Your task to perform on an android device: Look up the best rated coffee table on Ikea Image 0: 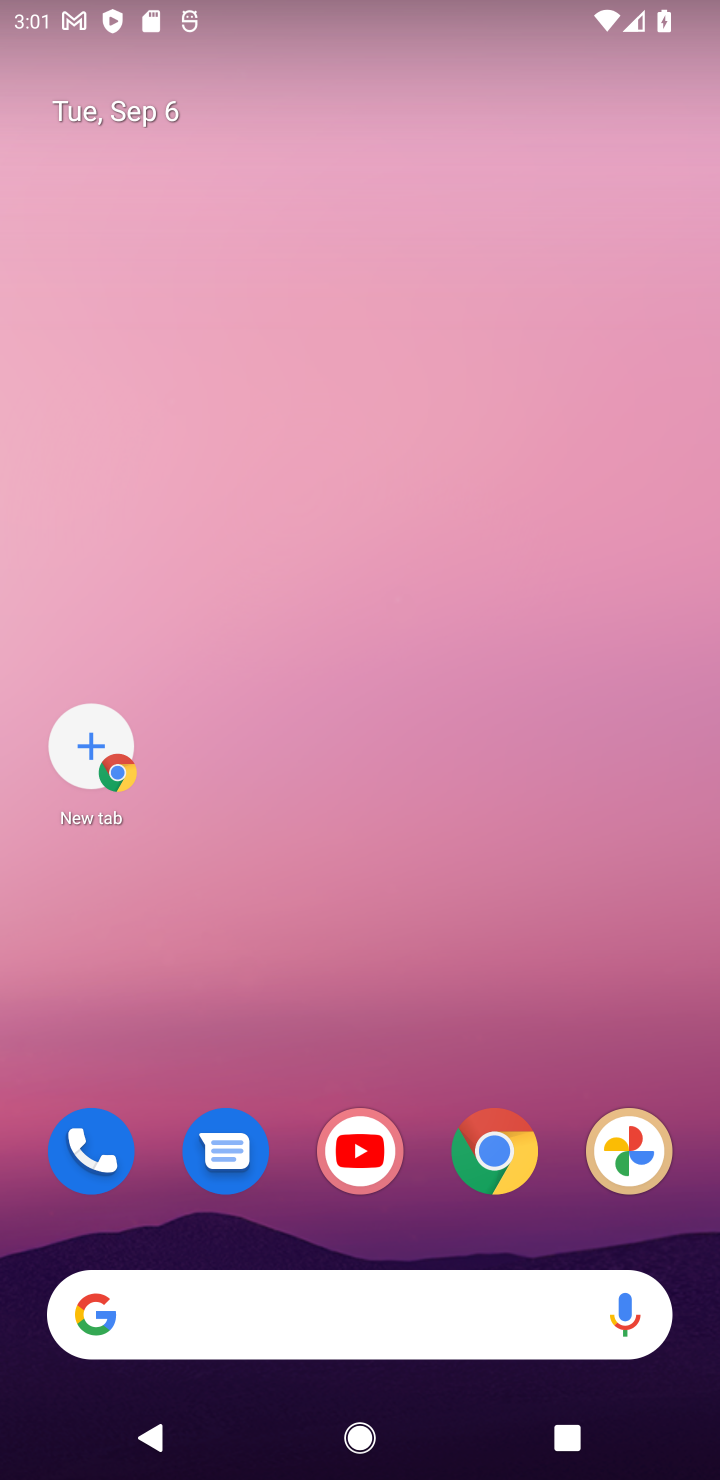
Step 0: click (501, 1157)
Your task to perform on an android device: Look up the best rated coffee table on Ikea Image 1: 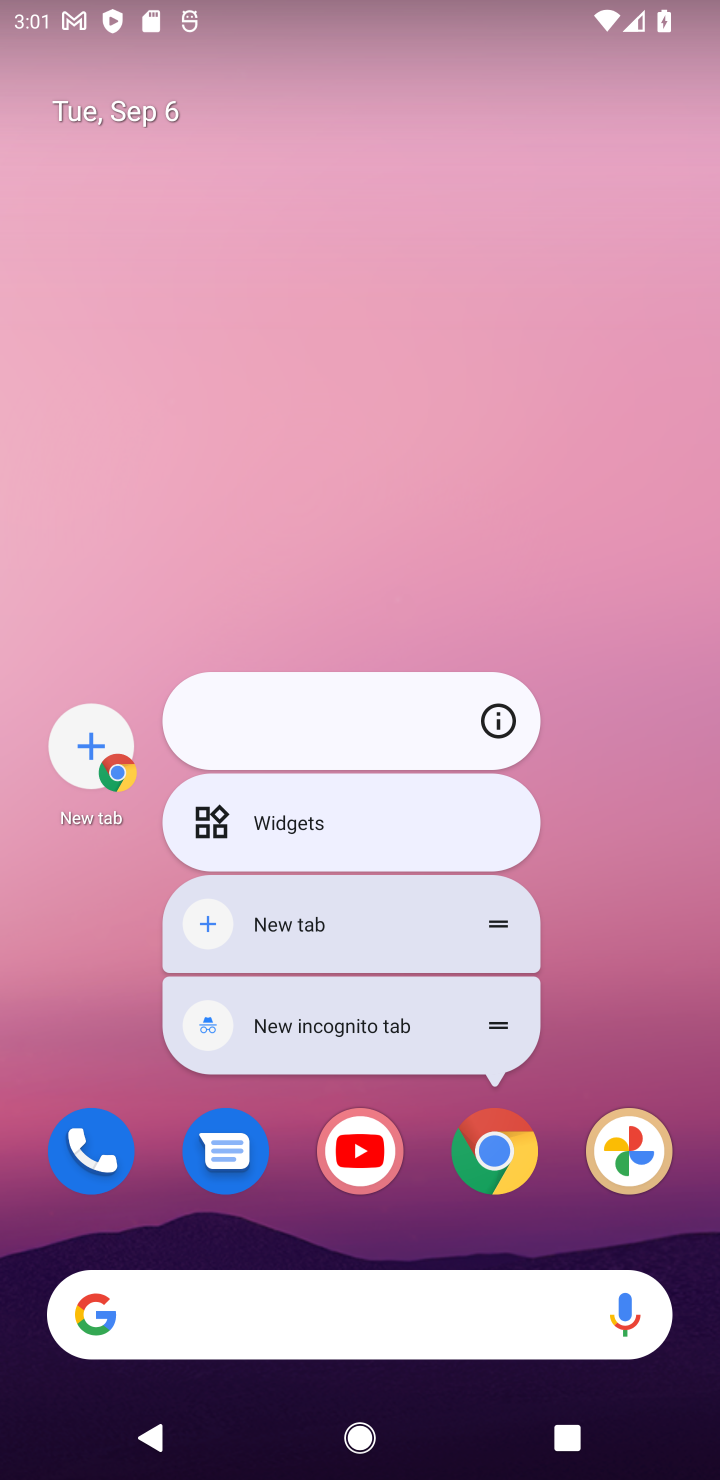
Step 1: click (520, 1152)
Your task to perform on an android device: Look up the best rated coffee table on Ikea Image 2: 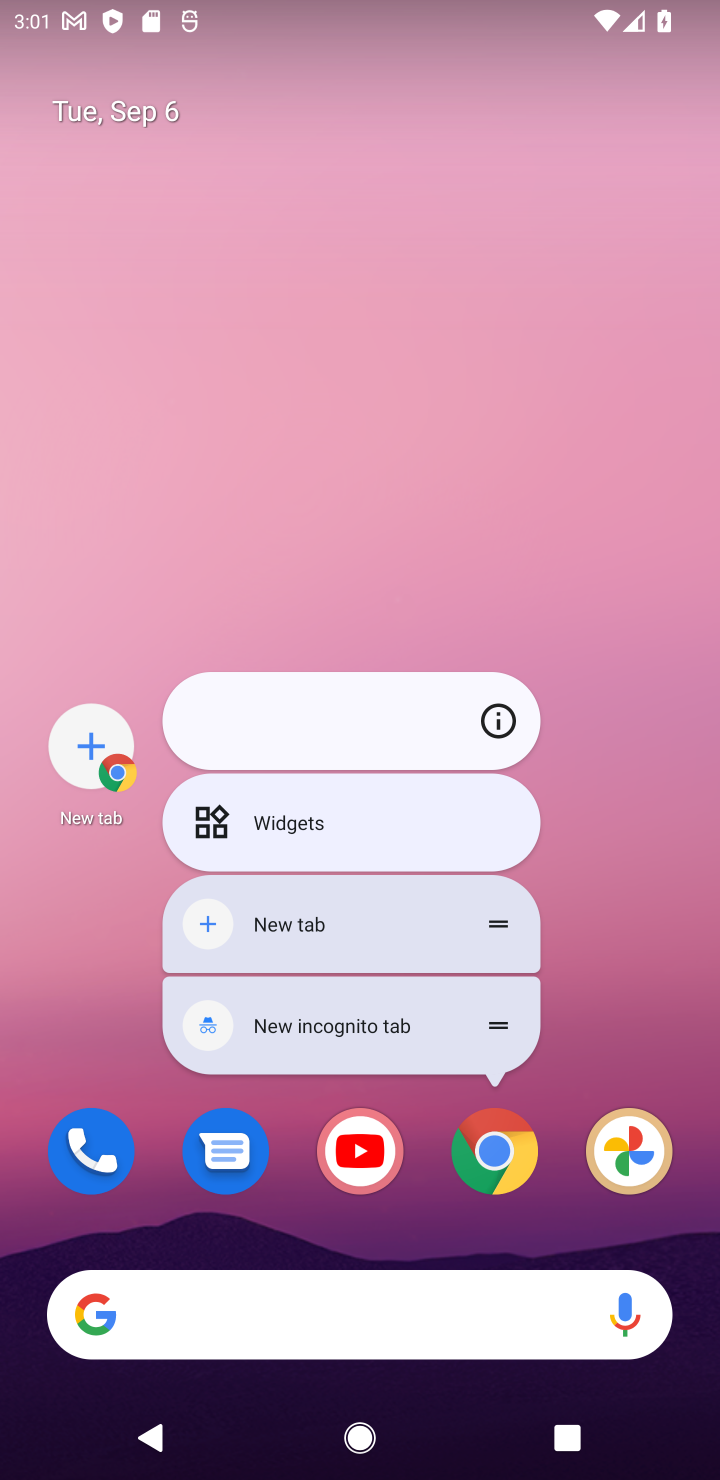
Step 2: click (515, 1161)
Your task to perform on an android device: Look up the best rated coffee table on Ikea Image 3: 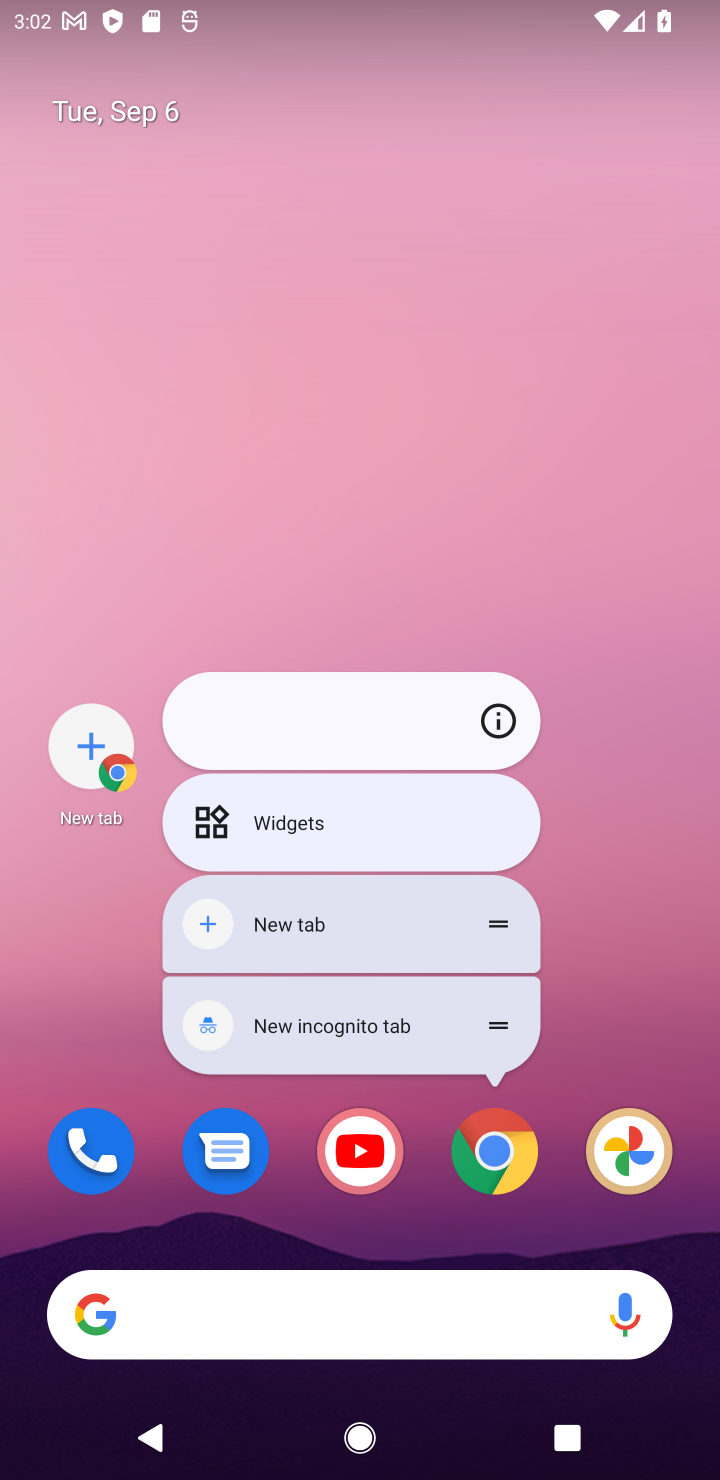
Step 3: click (481, 1159)
Your task to perform on an android device: Look up the best rated coffee table on Ikea Image 4: 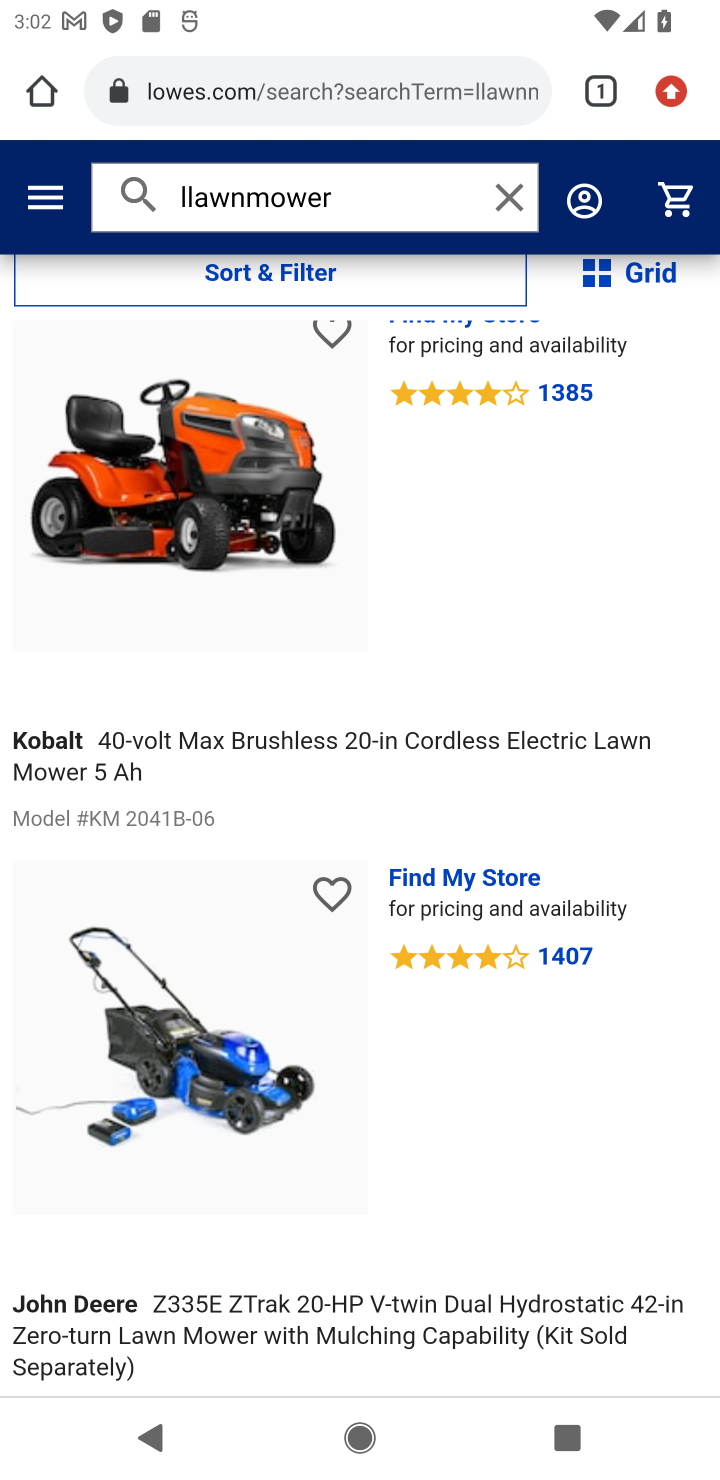
Step 4: click (510, 98)
Your task to perform on an android device: Look up the best rated coffee table on Ikea Image 5: 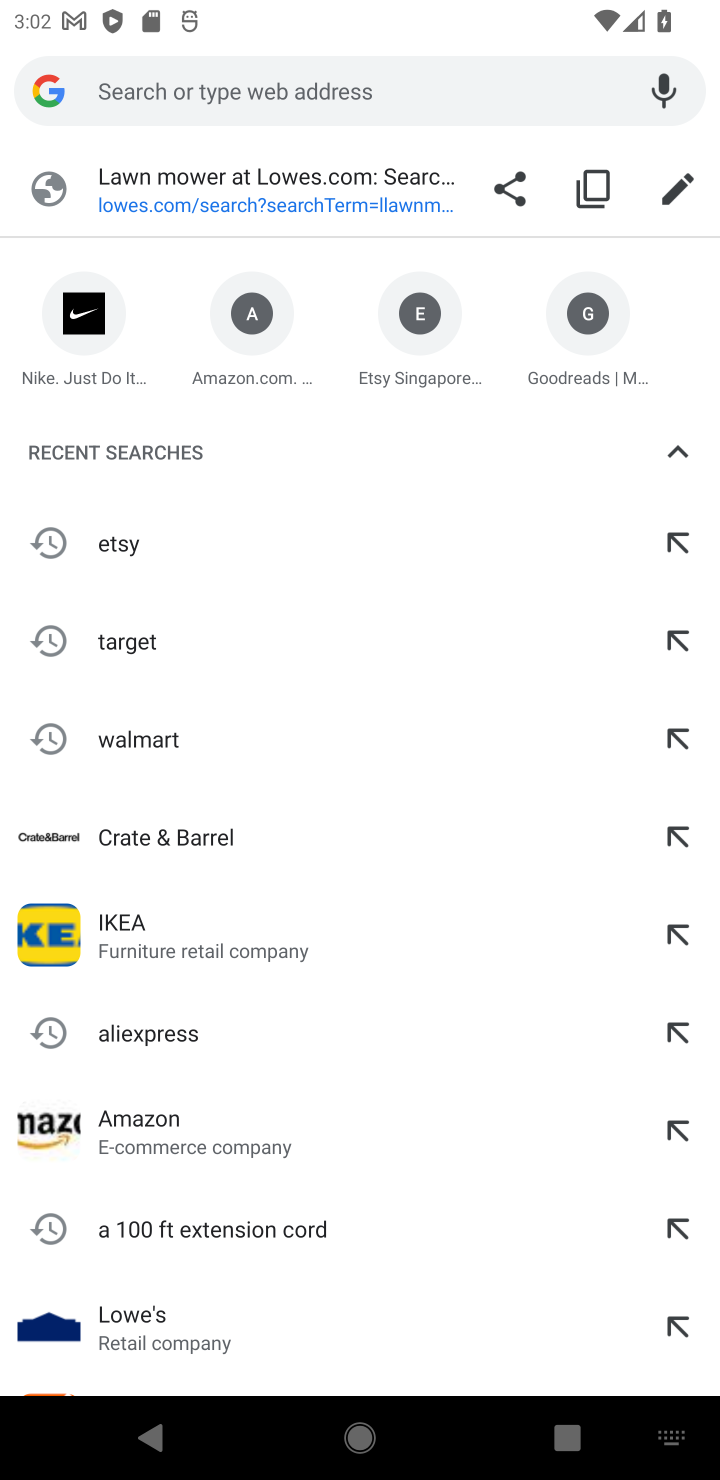
Step 5: click (94, 921)
Your task to perform on an android device: Look up the best rated coffee table on Ikea Image 6: 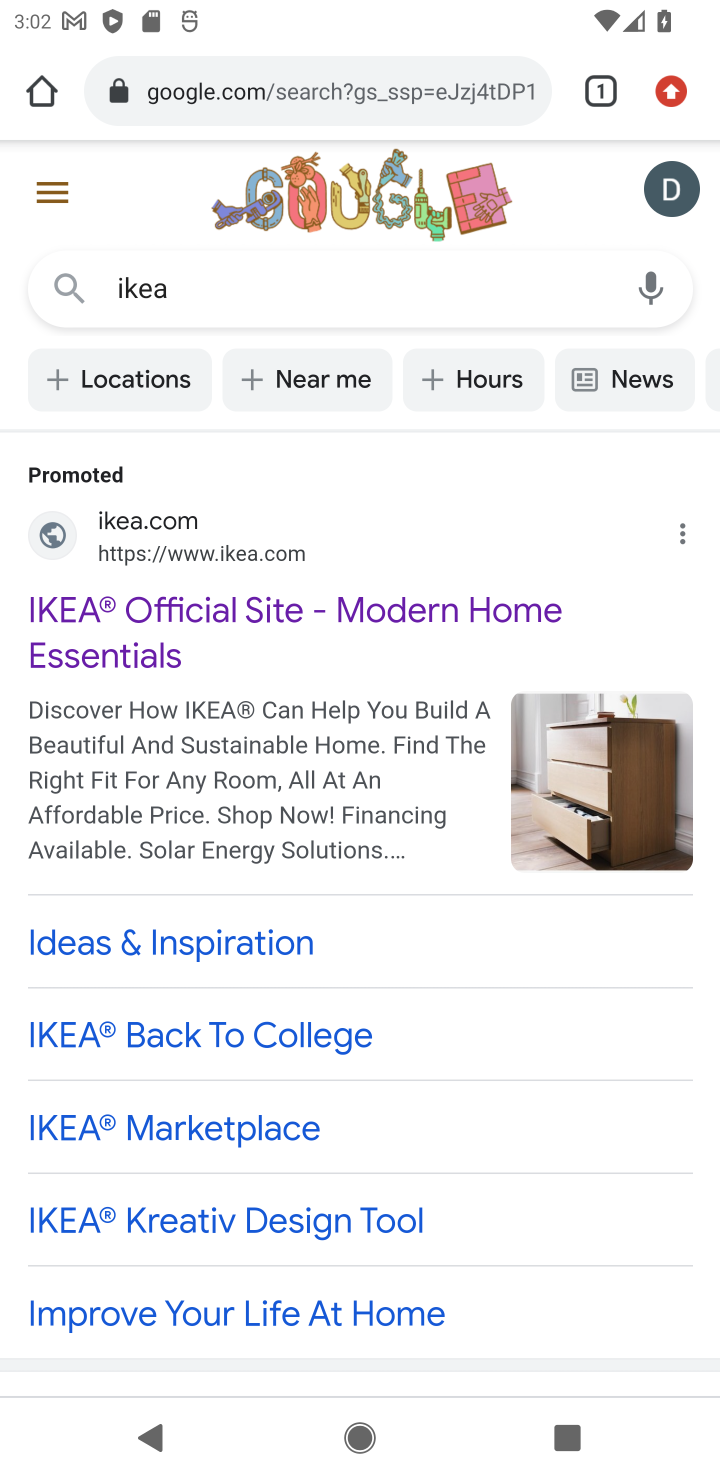
Step 6: drag from (528, 509) to (539, 312)
Your task to perform on an android device: Look up the best rated coffee table on Ikea Image 7: 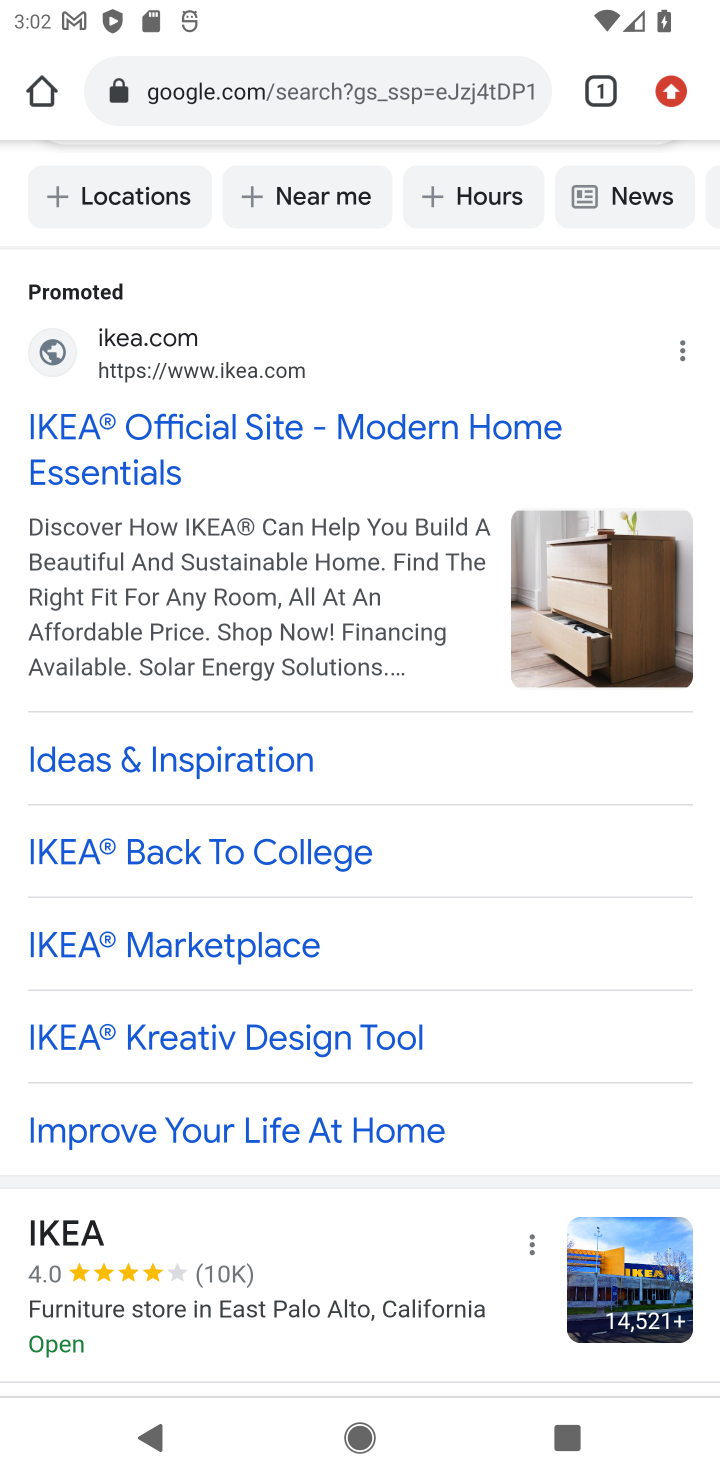
Step 7: drag from (411, 1350) to (501, 350)
Your task to perform on an android device: Look up the best rated coffee table on Ikea Image 8: 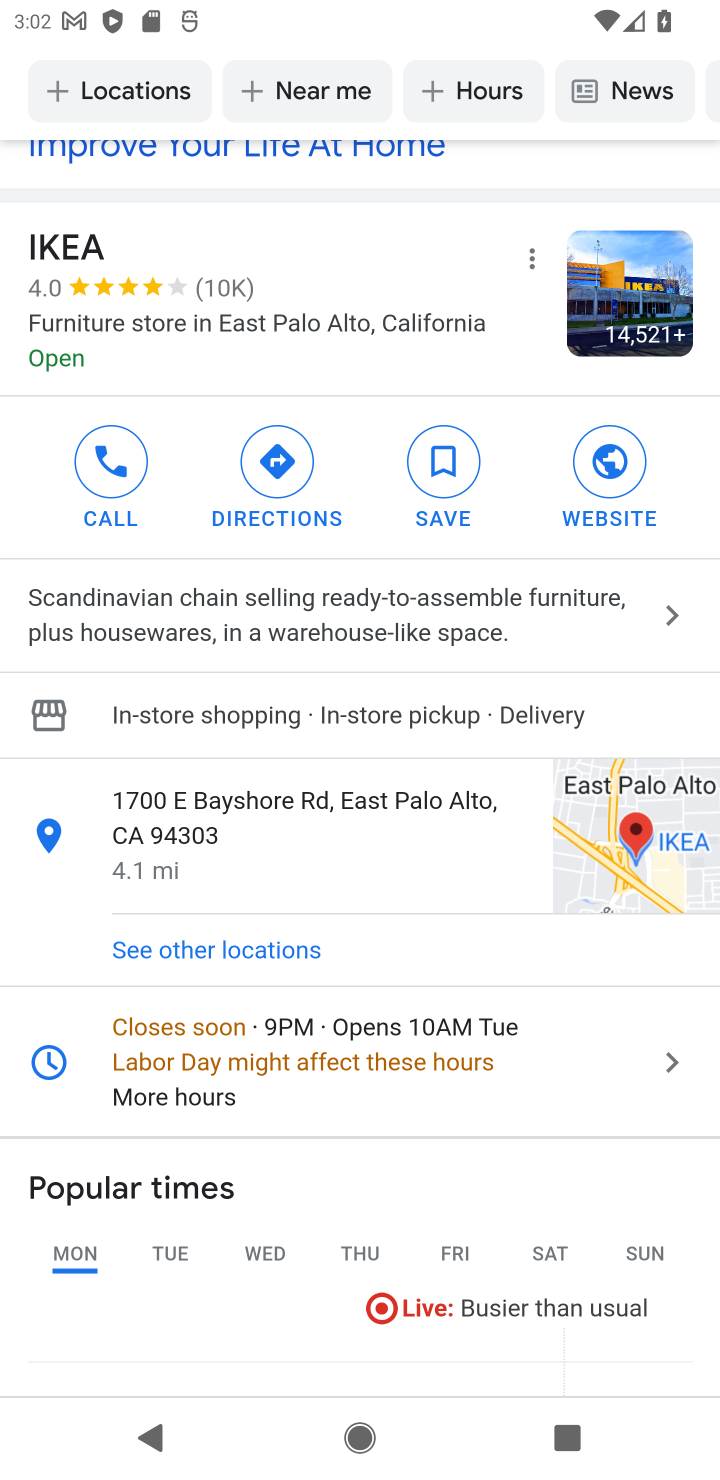
Step 8: drag from (599, 970) to (603, 430)
Your task to perform on an android device: Look up the best rated coffee table on Ikea Image 9: 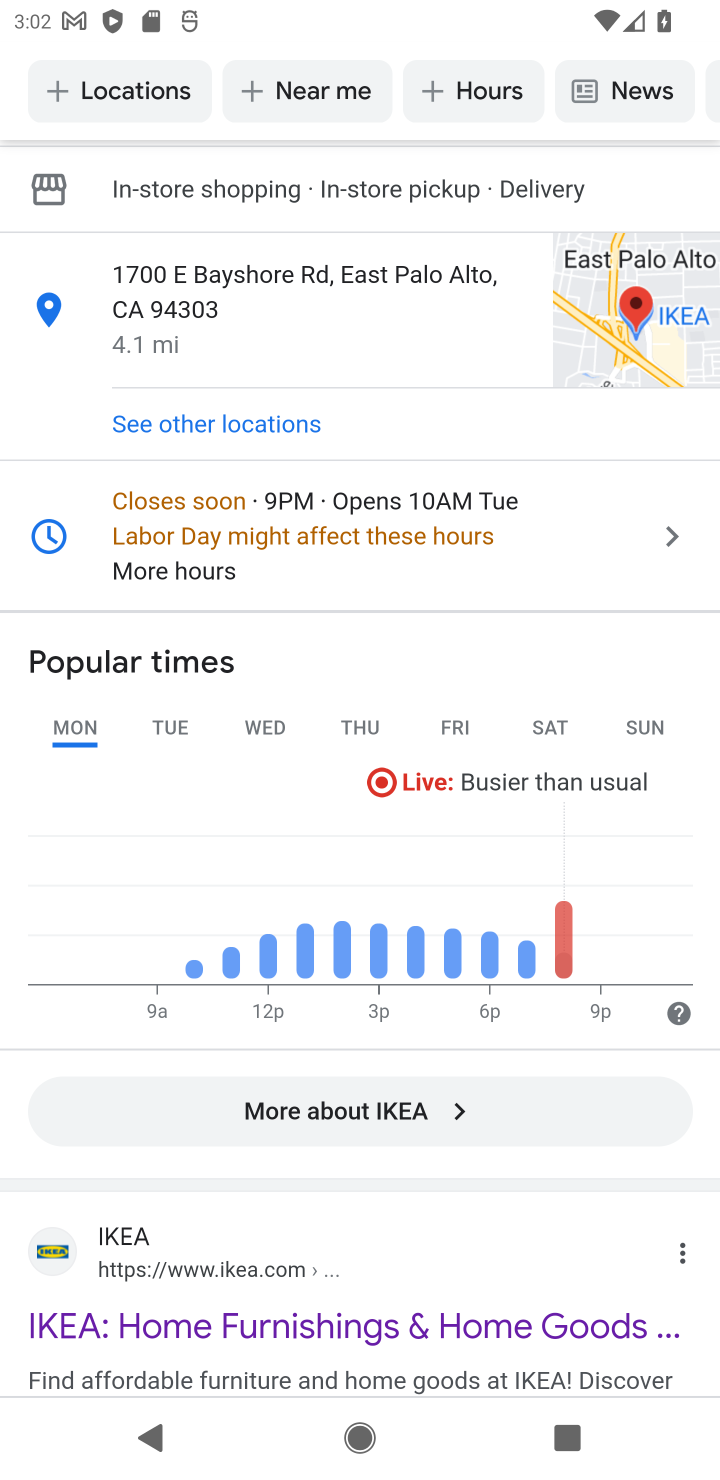
Step 9: click (149, 1329)
Your task to perform on an android device: Look up the best rated coffee table on Ikea Image 10: 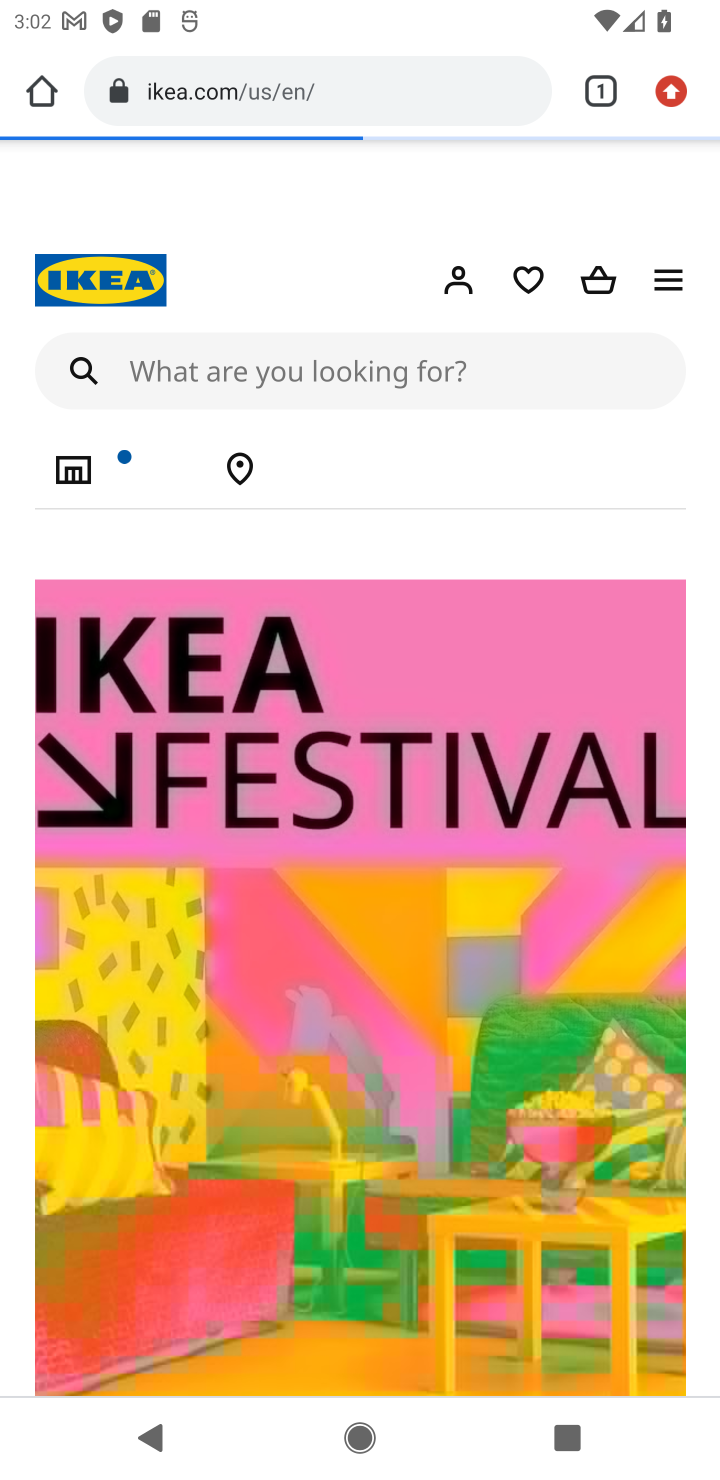
Step 10: click (502, 379)
Your task to perform on an android device: Look up the best rated coffee table on Ikea Image 11: 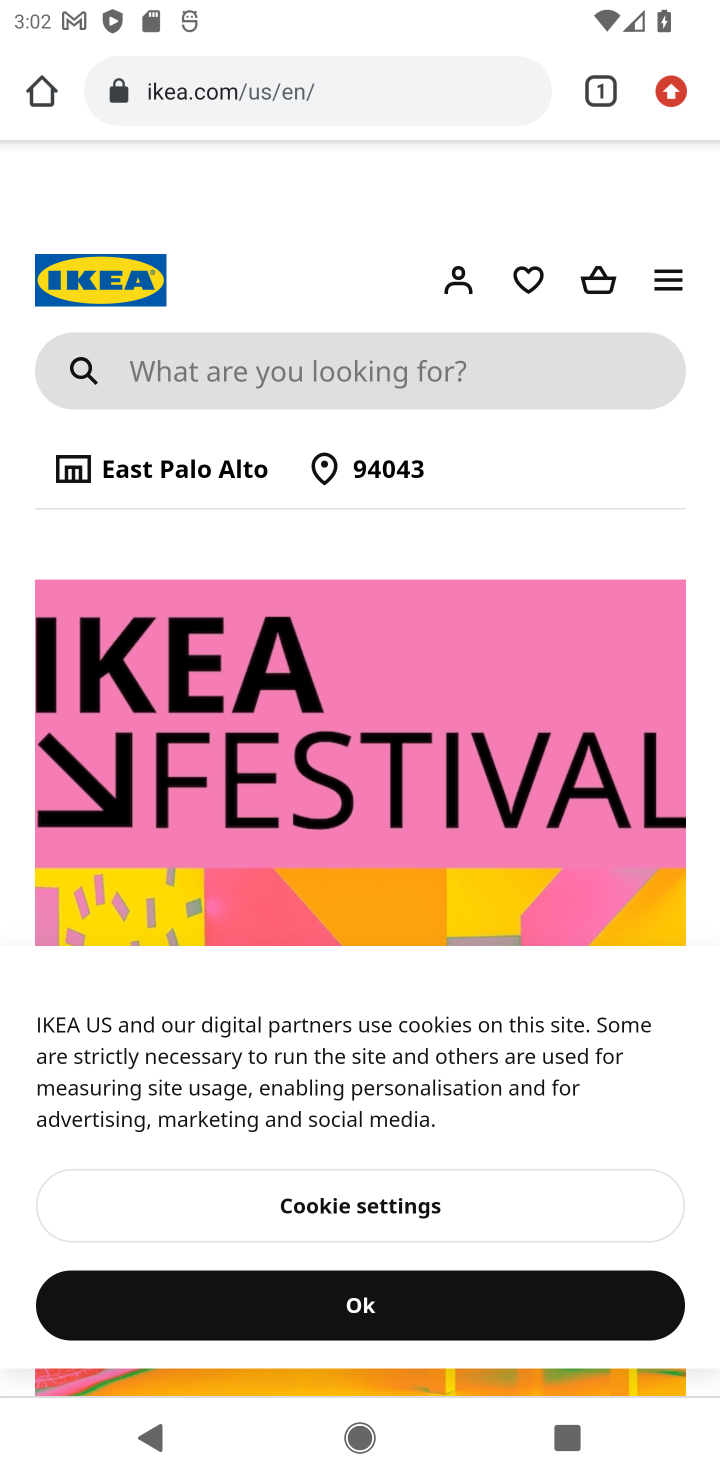
Step 11: type "coffee table"
Your task to perform on an android device: Look up the best rated coffee table on Ikea Image 12: 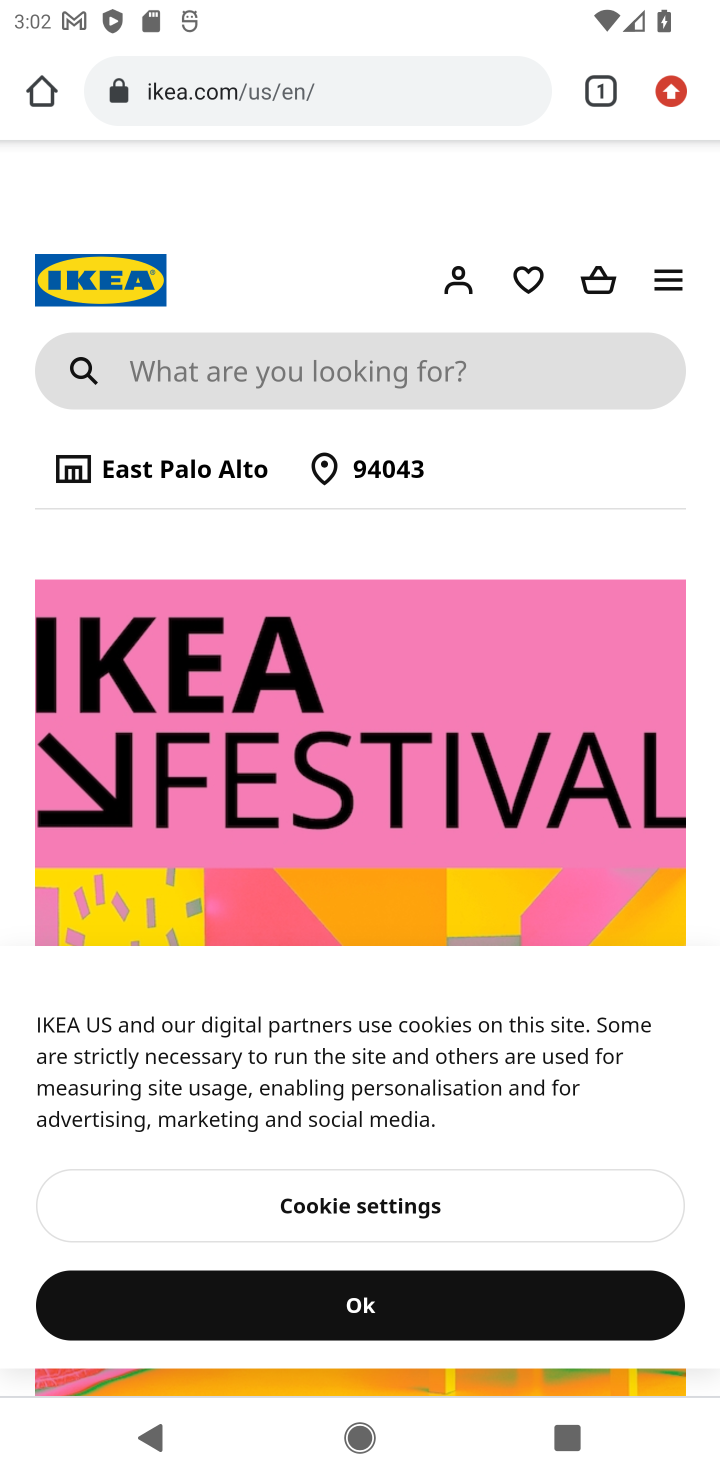
Step 12: type ""
Your task to perform on an android device: Look up the best rated coffee table on Ikea Image 13: 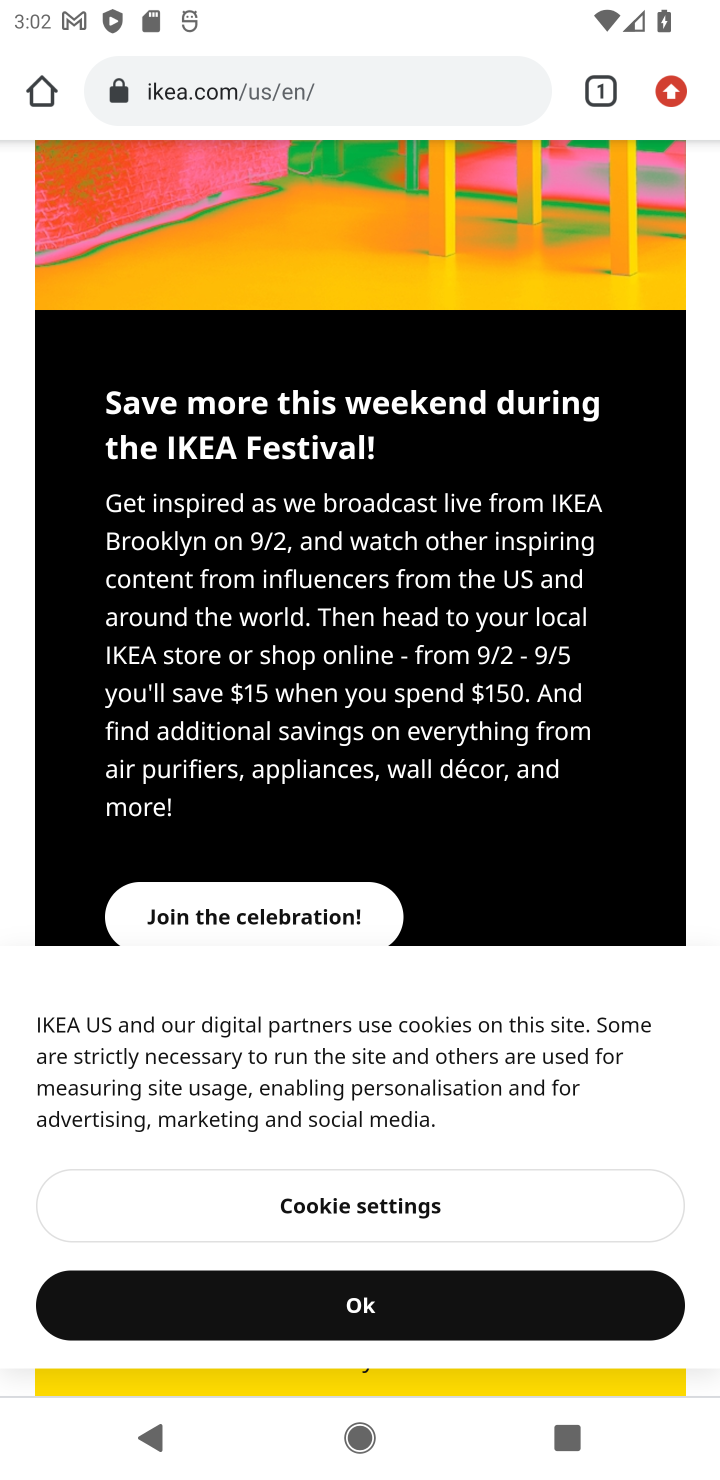
Step 13: drag from (411, 874) to (433, 427)
Your task to perform on an android device: Look up the best rated coffee table on Ikea Image 14: 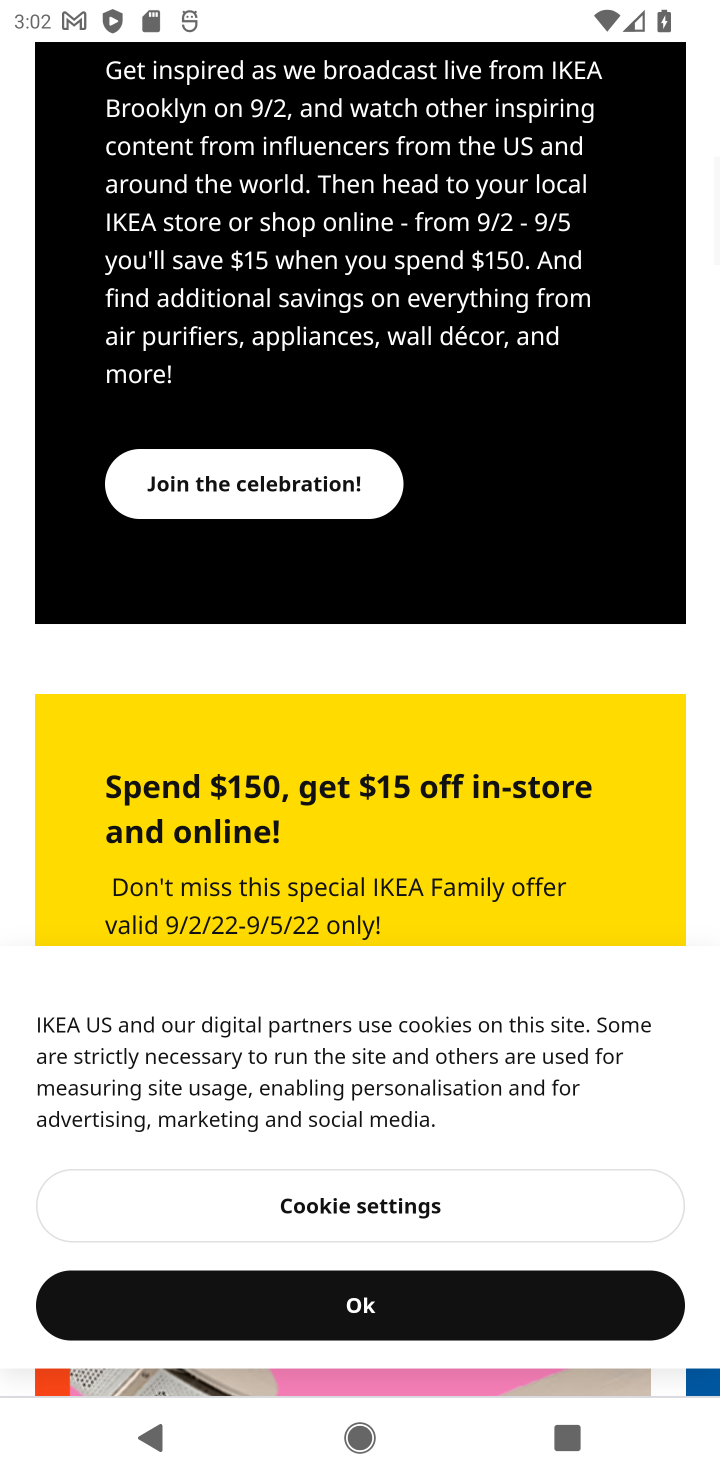
Step 14: drag from (580, 1121) to (588, 475)
Your task to perform on an android device: Look up the best rated coffee table on Ikea Image 15: 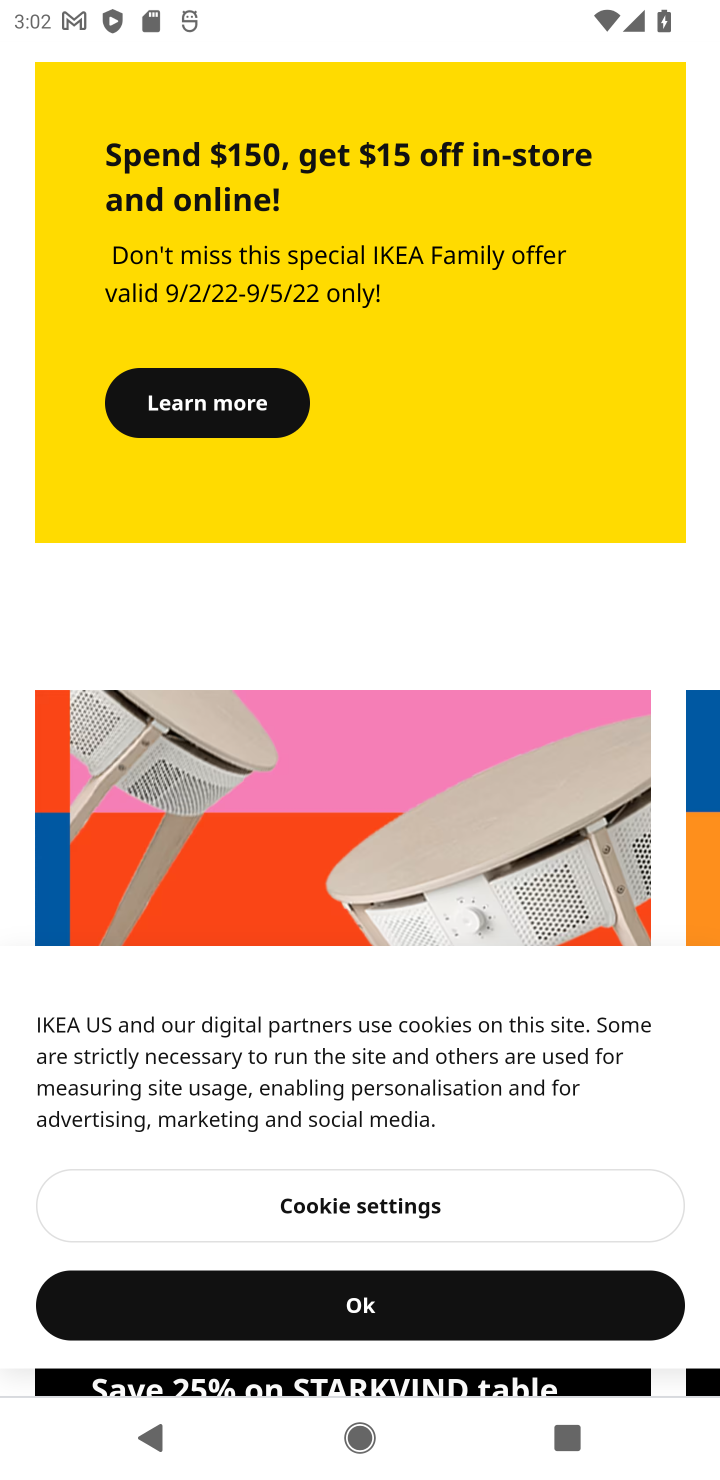
Step 15: drag from (455, 1042) to (488, 551)
Your task to perform on an android device: Look up the best rated coffee table on Ikea Image 16: 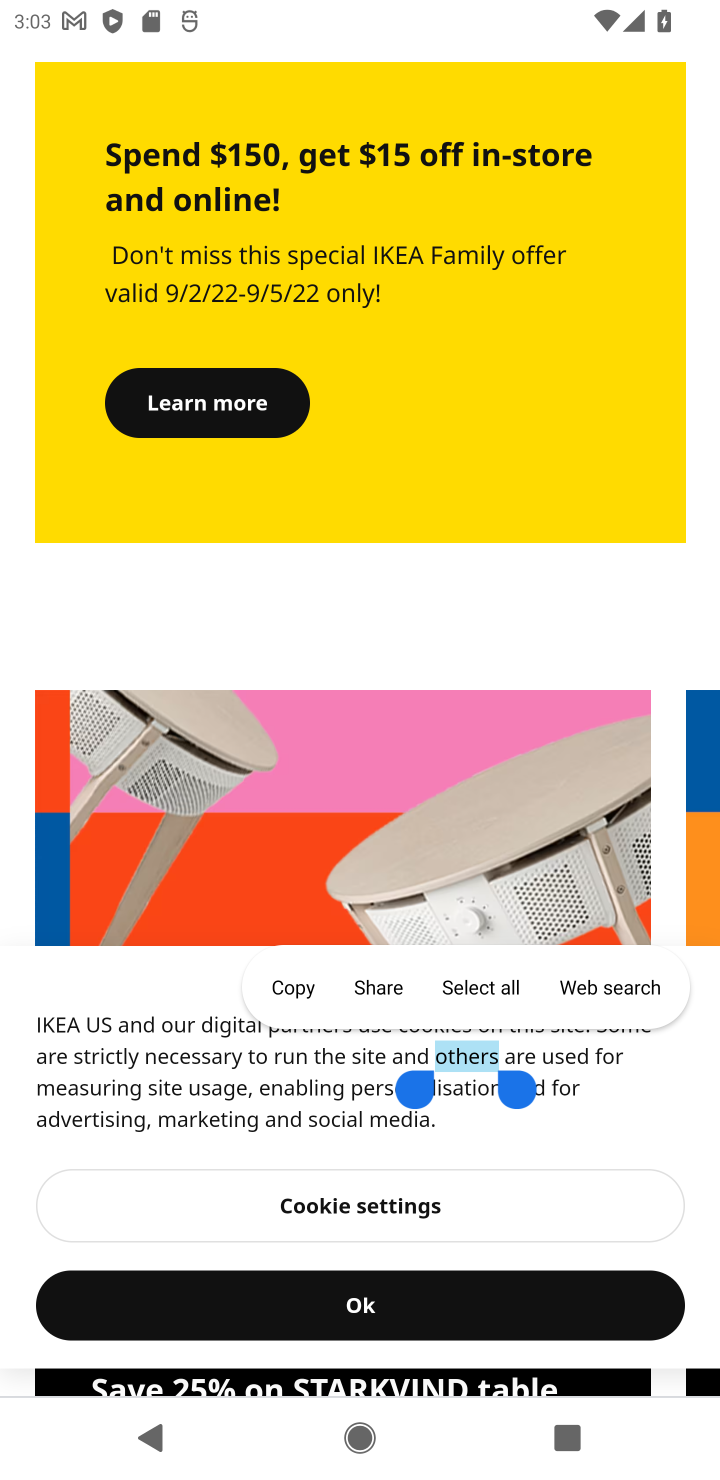
Step 16: drag from (607, 710) to (587, 409)
Your task to perform on an android device: Look up the best rated coffee table on Ikea Image 17: 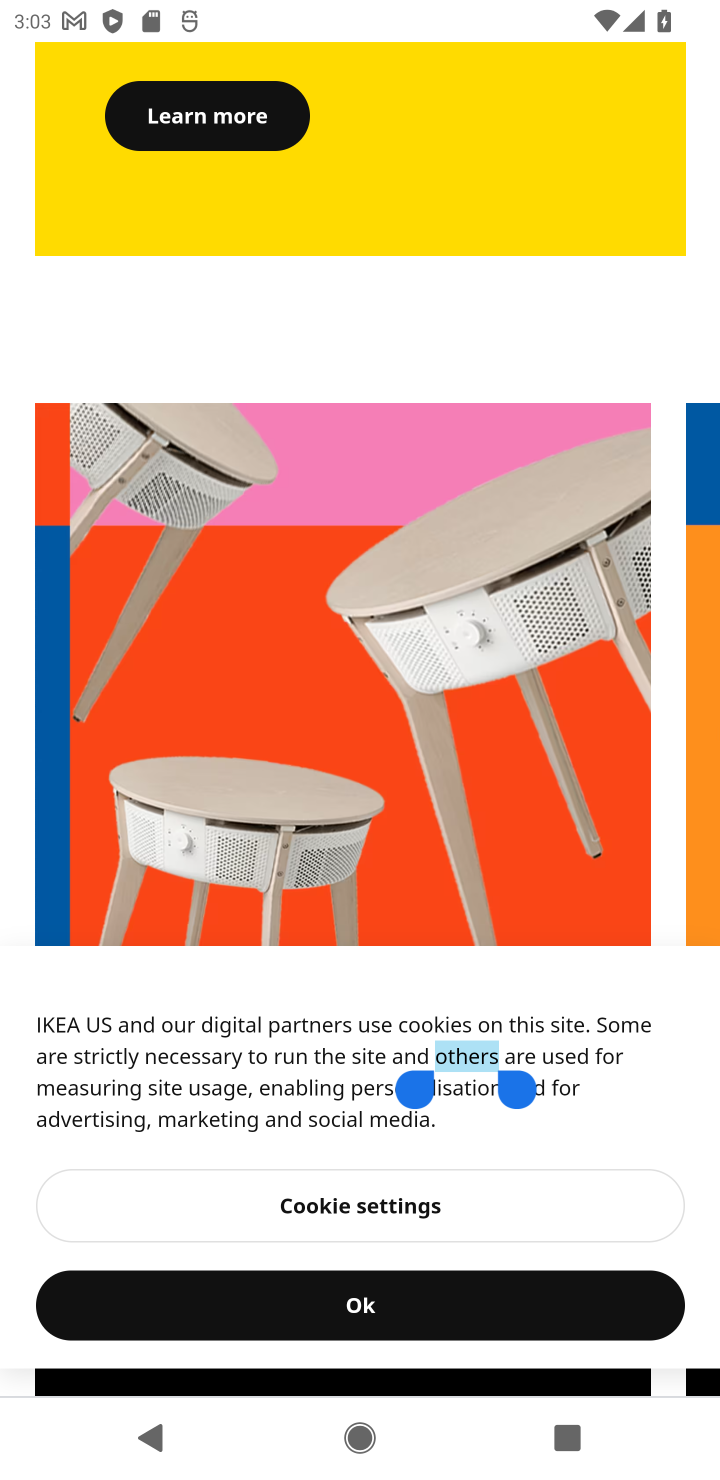
Step 17: drag from (597, 739) to (565, 350)
Your task to perform on an android device: Look up the best rated coffee table on Ikea Image 18: 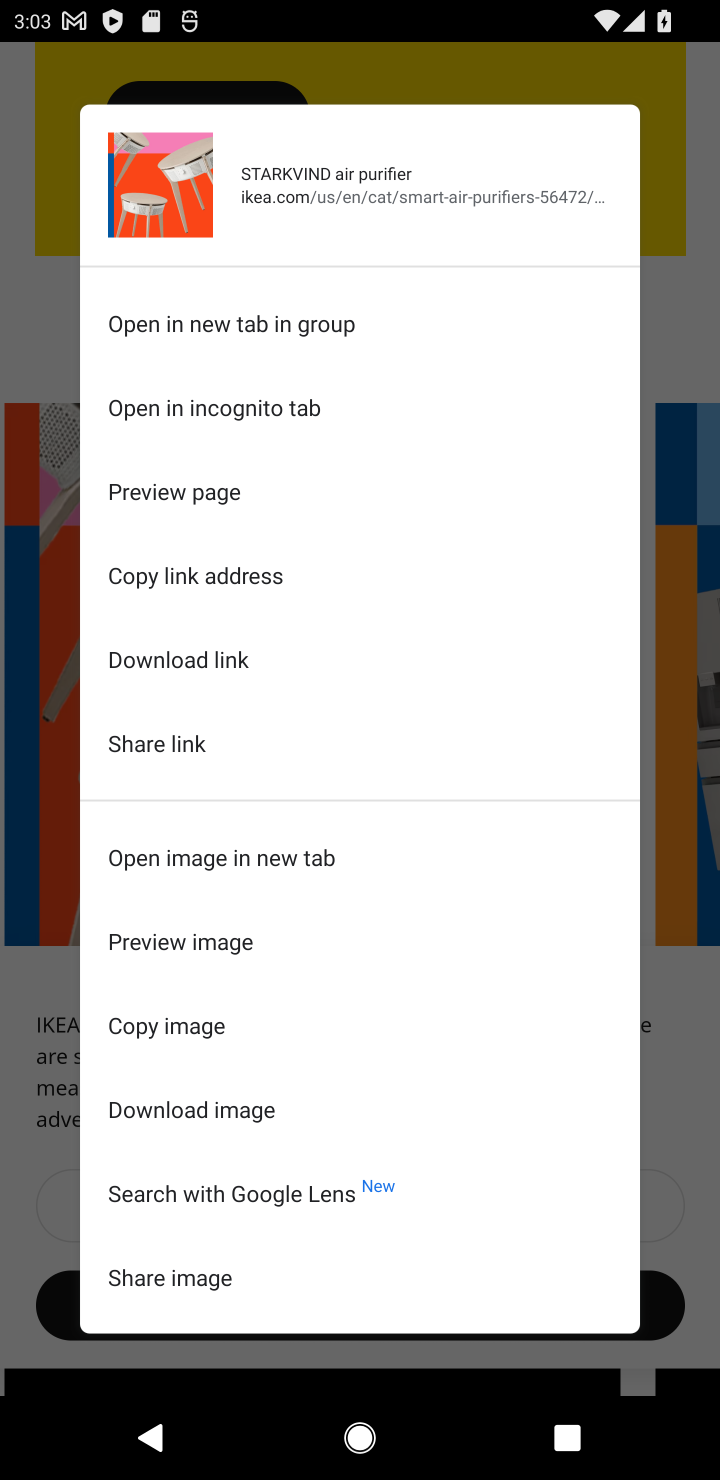
Step 18: click (682, 730)
Your task to perform on an android device: Look up the best rated coffee table on Ikea Image 19: 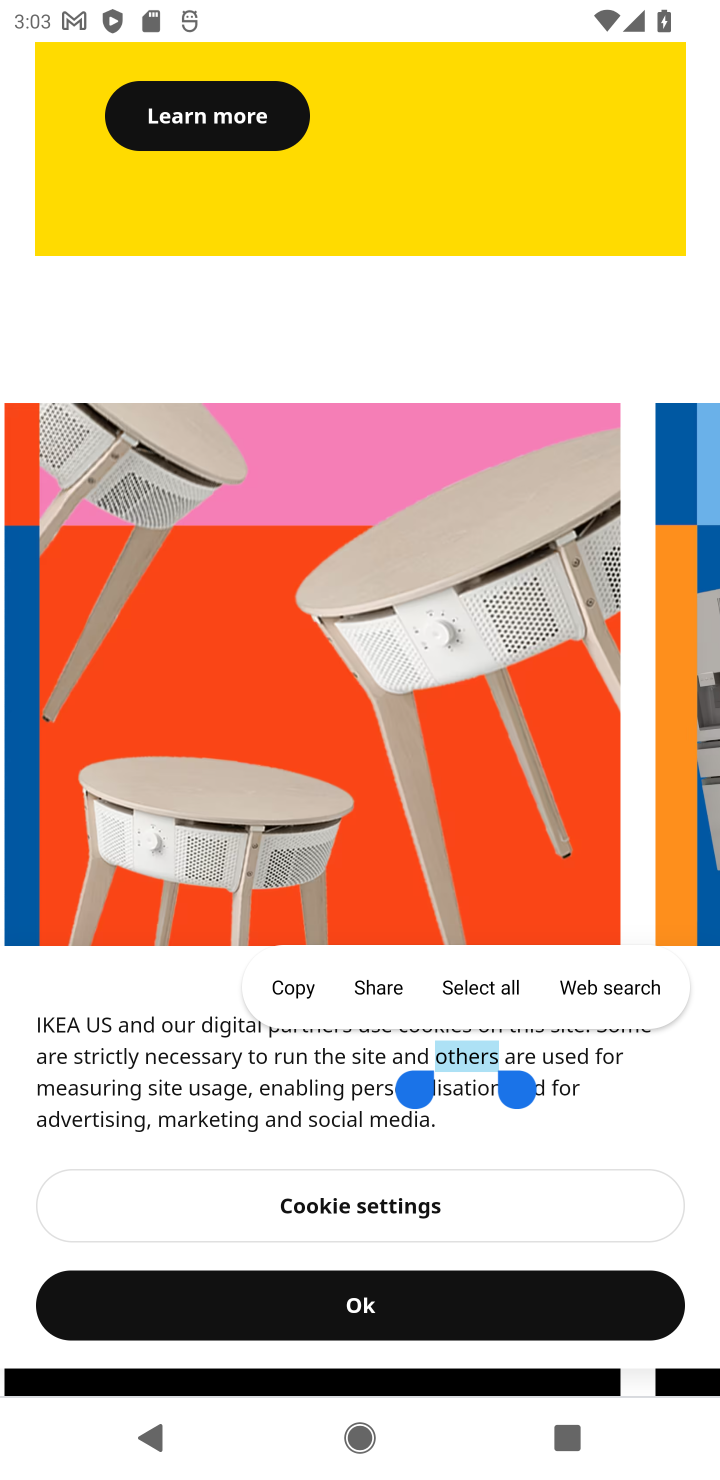
Step 19: drag from (250, 547) to (246, 480)
Your task to perform on an android device: Look up the best rated coffee table on Ikea Image 20: 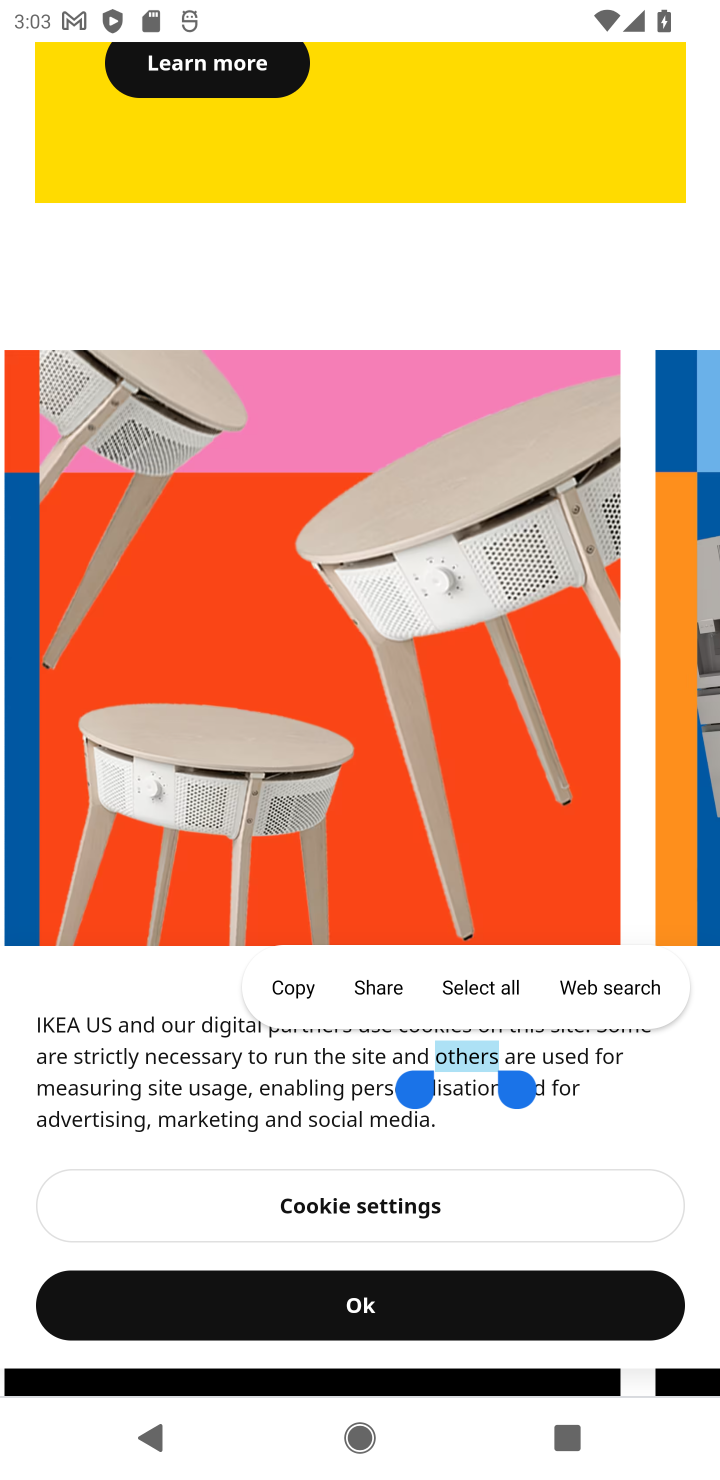
Step 20: drag from (204, 1008) to (172, 574)
Your task to perform on an android device: Look up the best rated coffee table on Ikea Image 21: 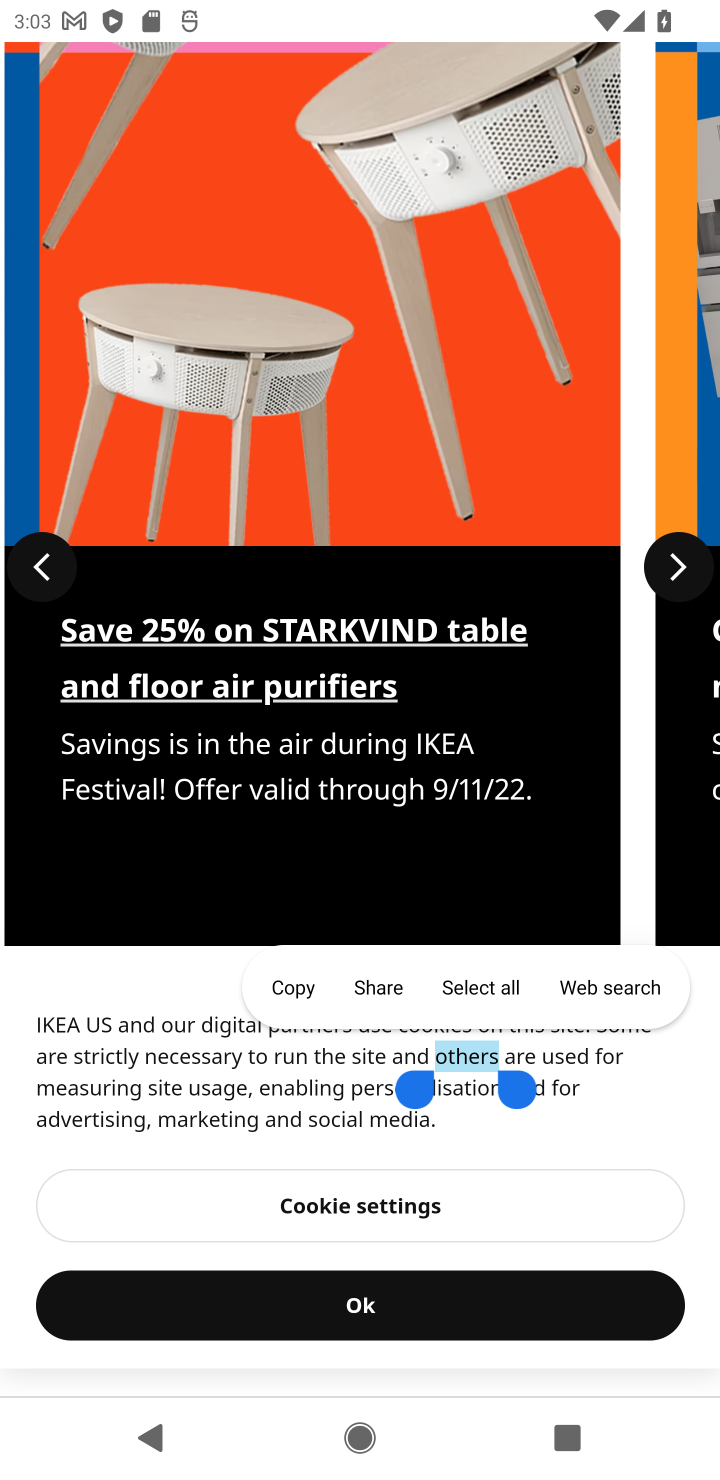
Step 21: drag from (337, 1063) to (410, 326)
Your task to perform on an android device: Look up the best rated coffee table on Ikea Image 22: 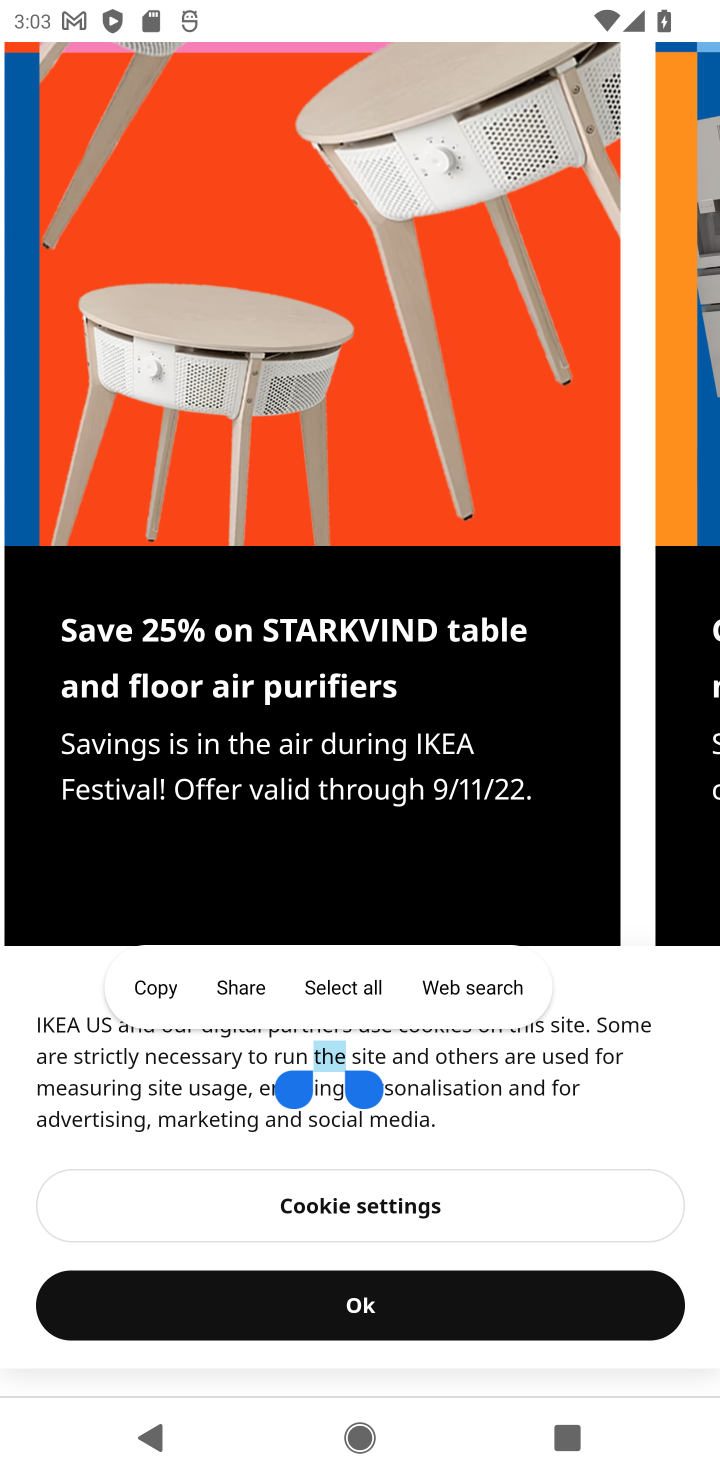
Step 22: drag from (277, 882) to (311, 392)
Your task to perform on an android device: Look up the best rated coffee table on Ikea Image 23: 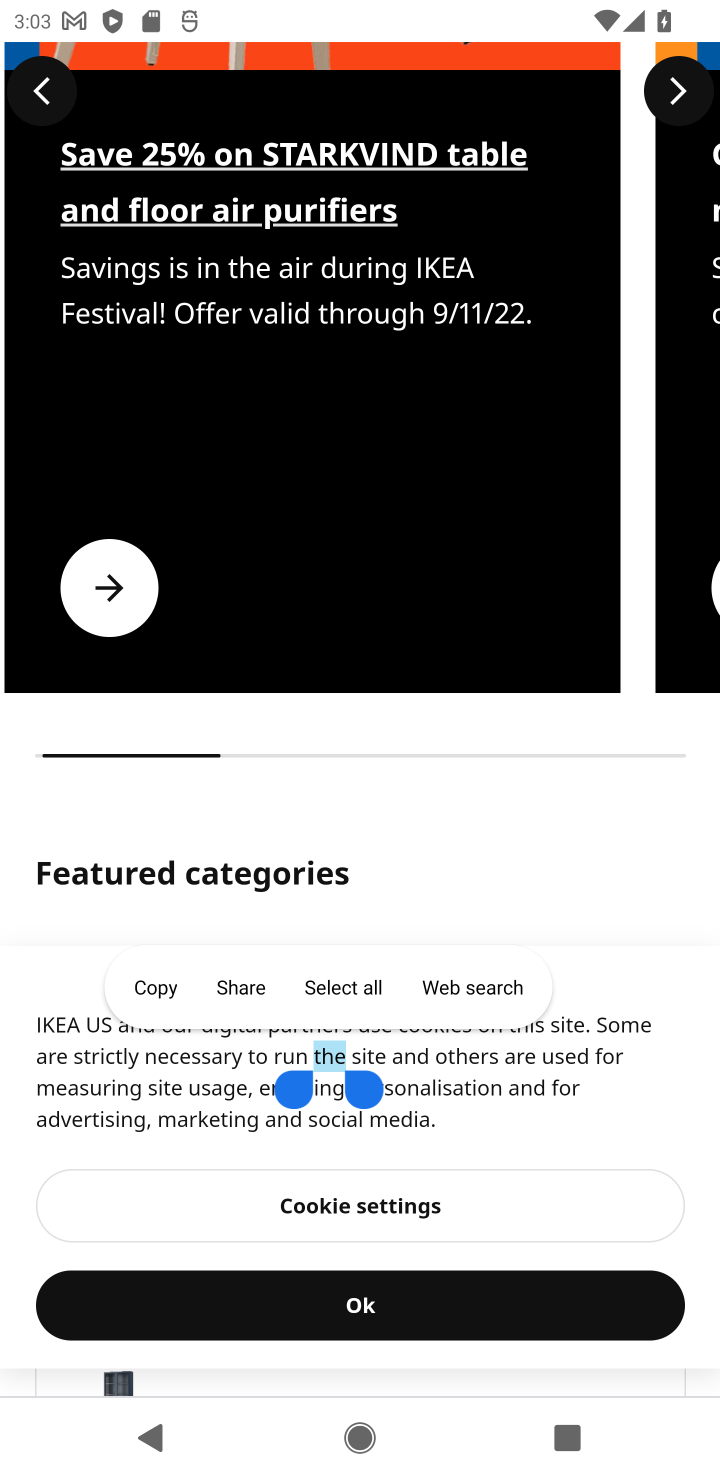
Step 23: drag from (333, 849) to (331, 281)
Your task to perform on an android device: Look up the best rated coffee table on Ikea Image 24: 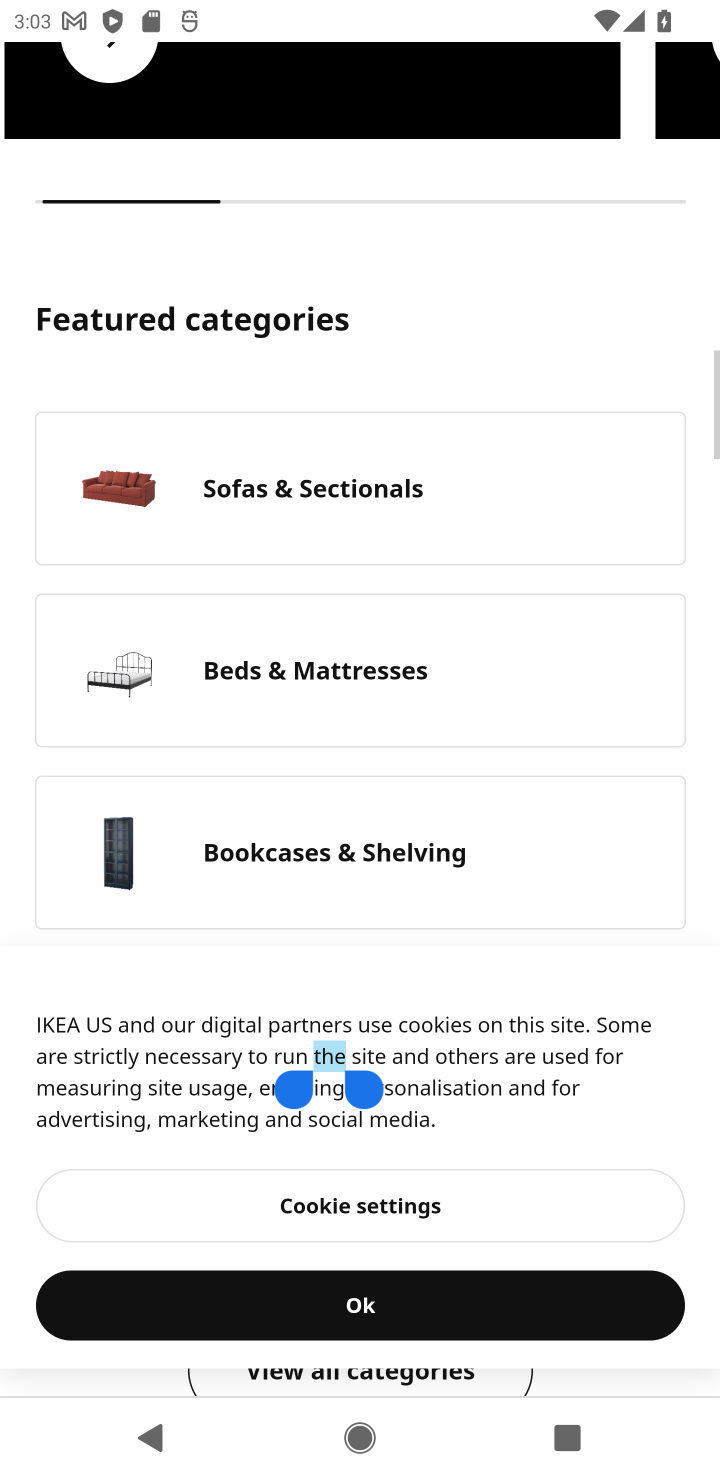
Step 24: drag from (291, 721) to (287, 418)
Your task to perform on an android device: Look up the best rated coffee table on Ikea Image 25: 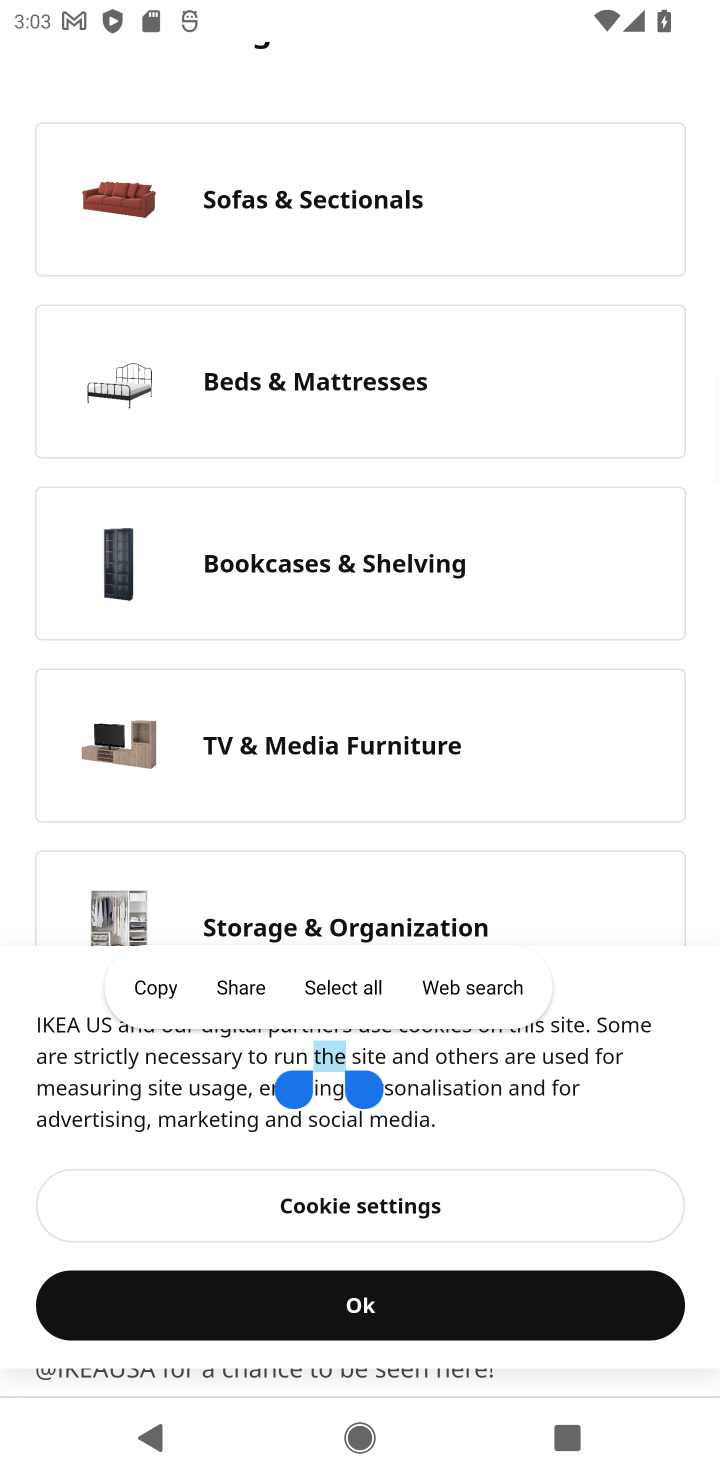
Step 25: drag from (187, 835) to (161, 642)
Your task to perform on an android device: Look up the best rated coffee table on Ikea Image 26: 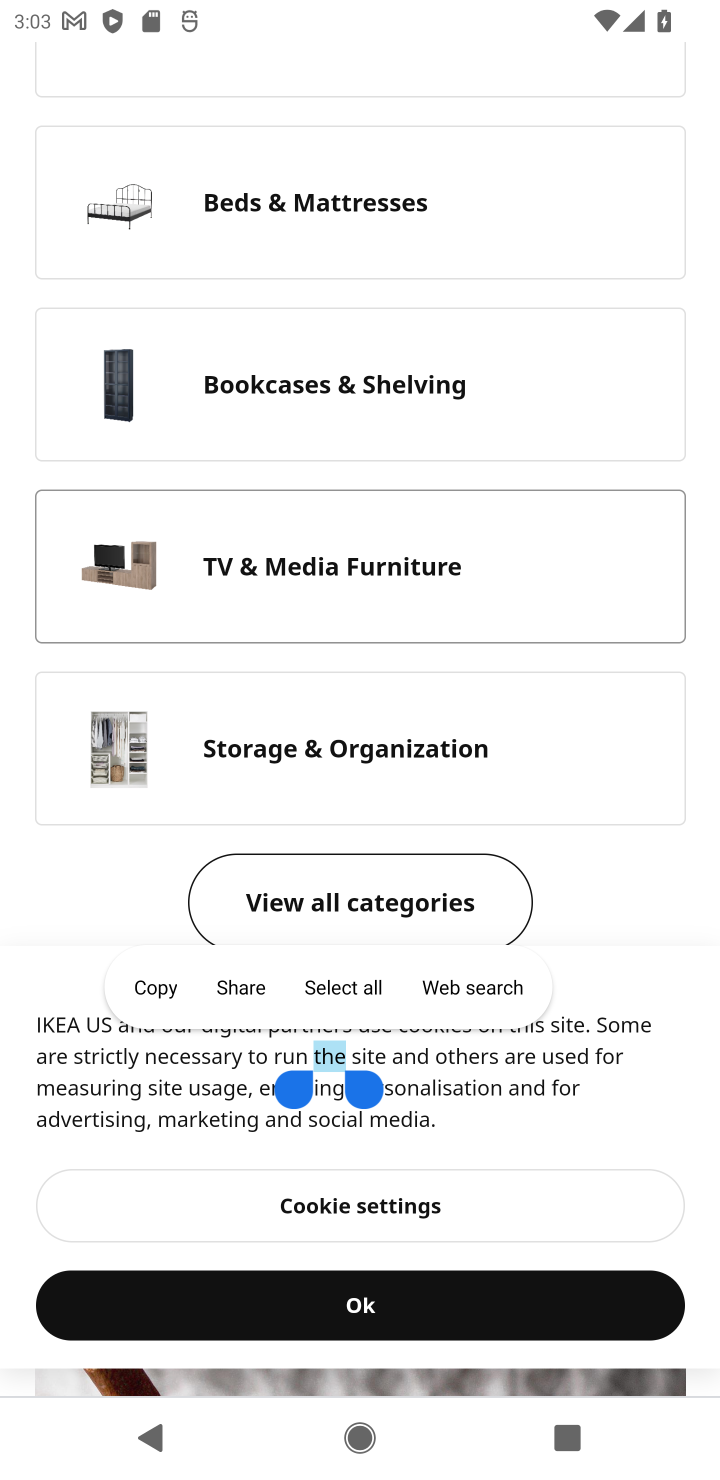
Step 26: drag from (616, 418) to (610, 1028)
Your task to perform on an android device: Look up the best rated coffee table on Ikea Image 27: 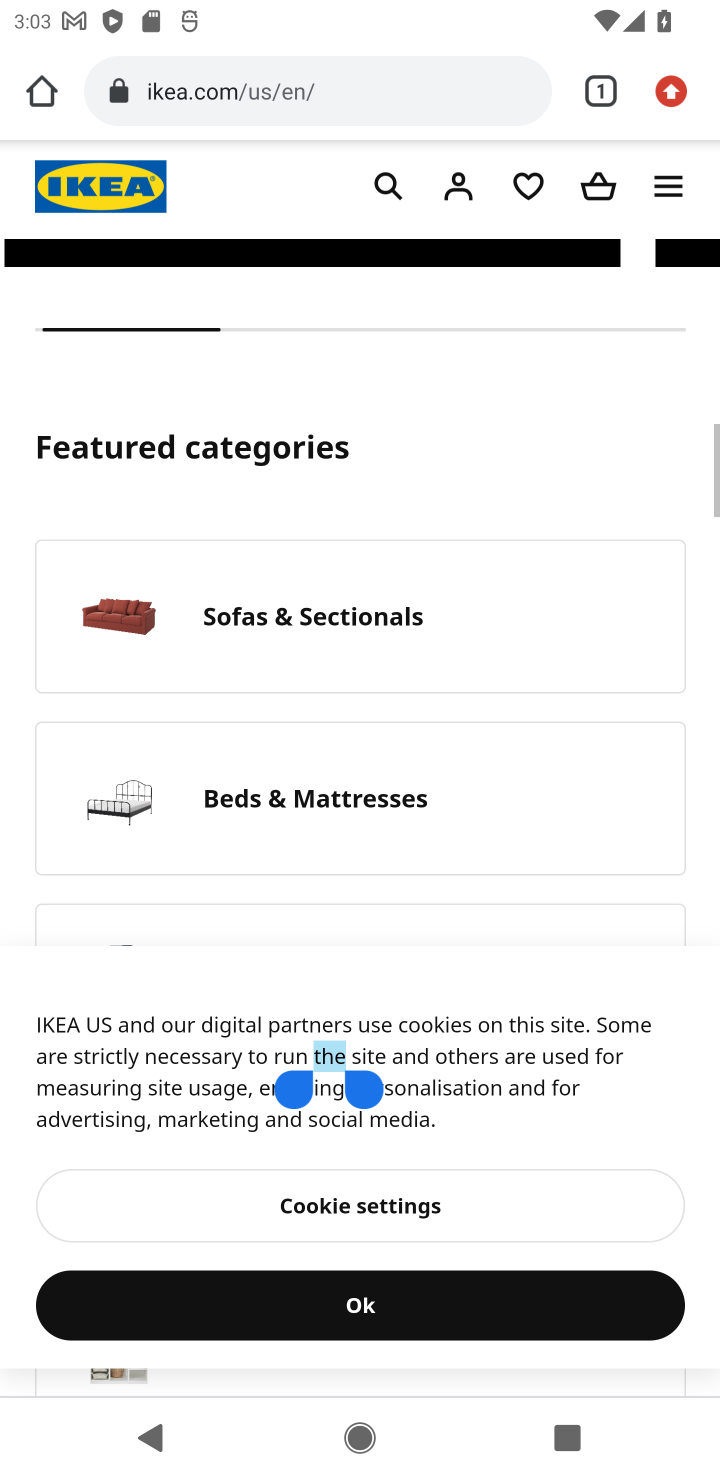
Step 27: drag from (550, 706) to (582, 1127)
Your task to perform on an android device: Look up the best rated coffee table on Ikea Image 28: 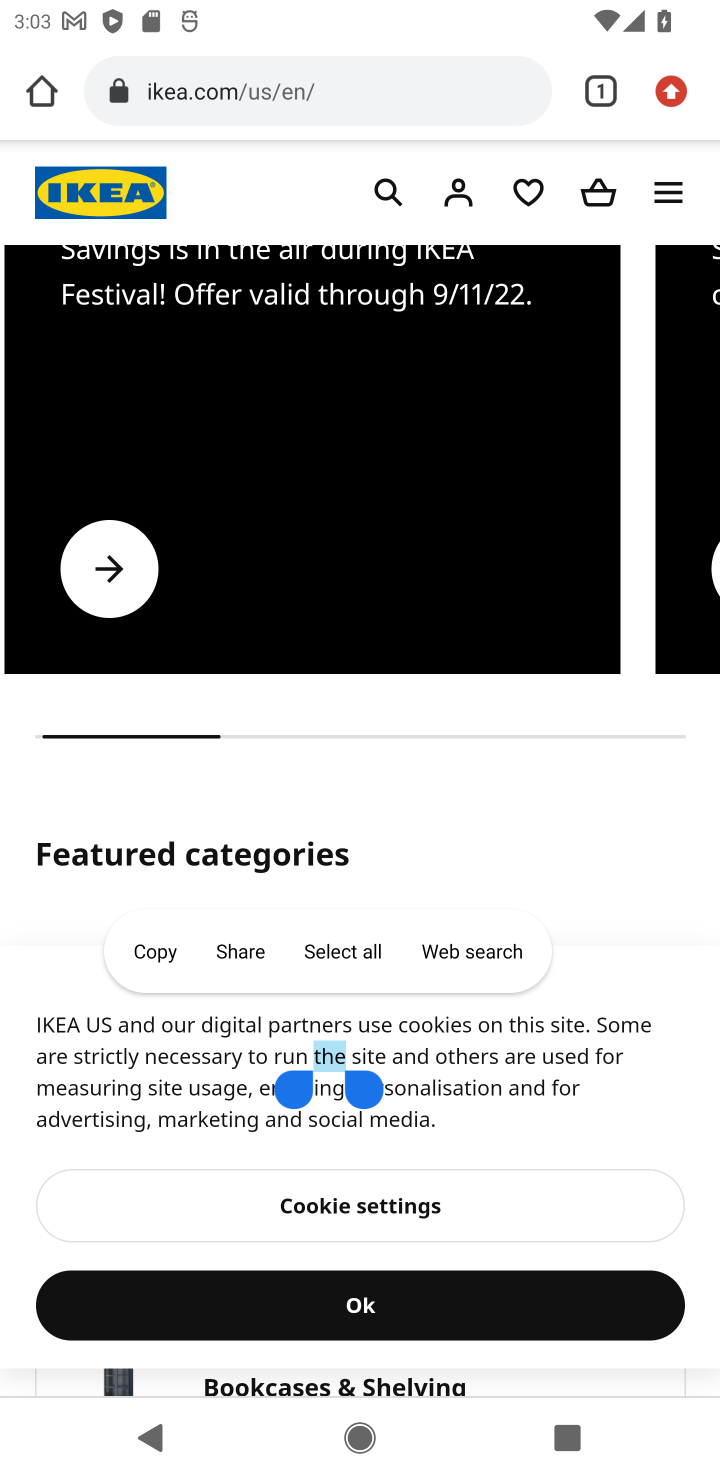
Step 28: click (385, 187)
Your task to perform on an android device: Look up the best rated coffee table on Ikea Image 29: 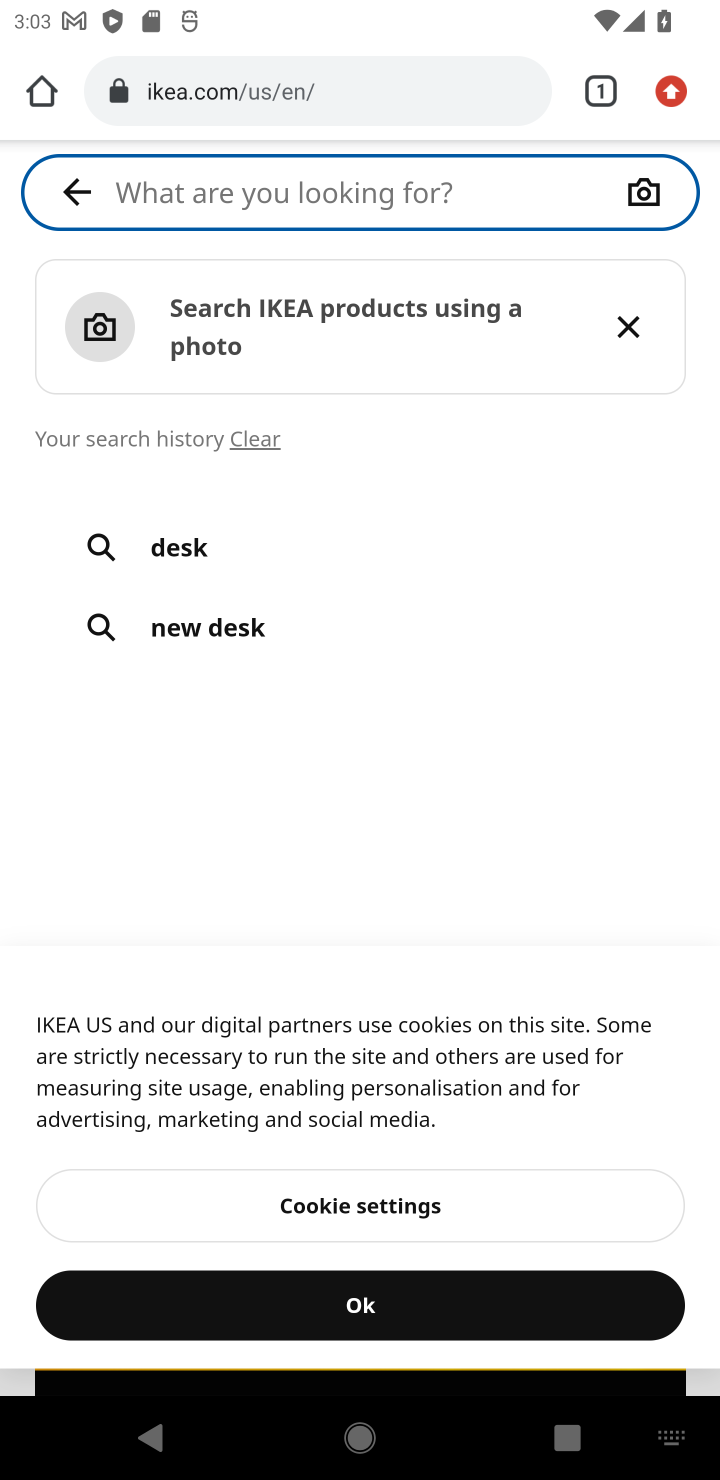
Step 29: click (313, 385)
Your task to perform on an android device: Look up the best rated coffee table on Ikea Image 30: 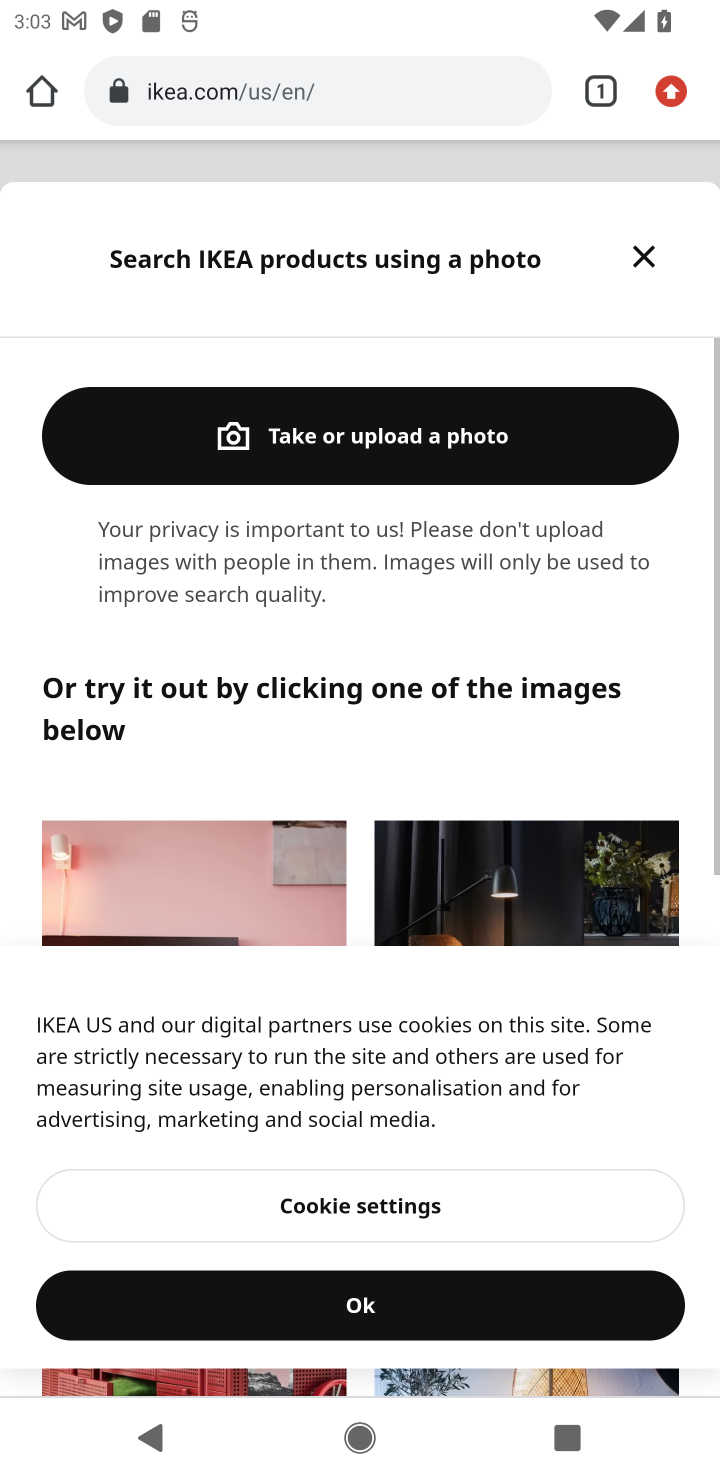
Step 30: click (646, 264)
Your task to perform on an android device: Look up the best rated coffee table on Ikea Image 31: 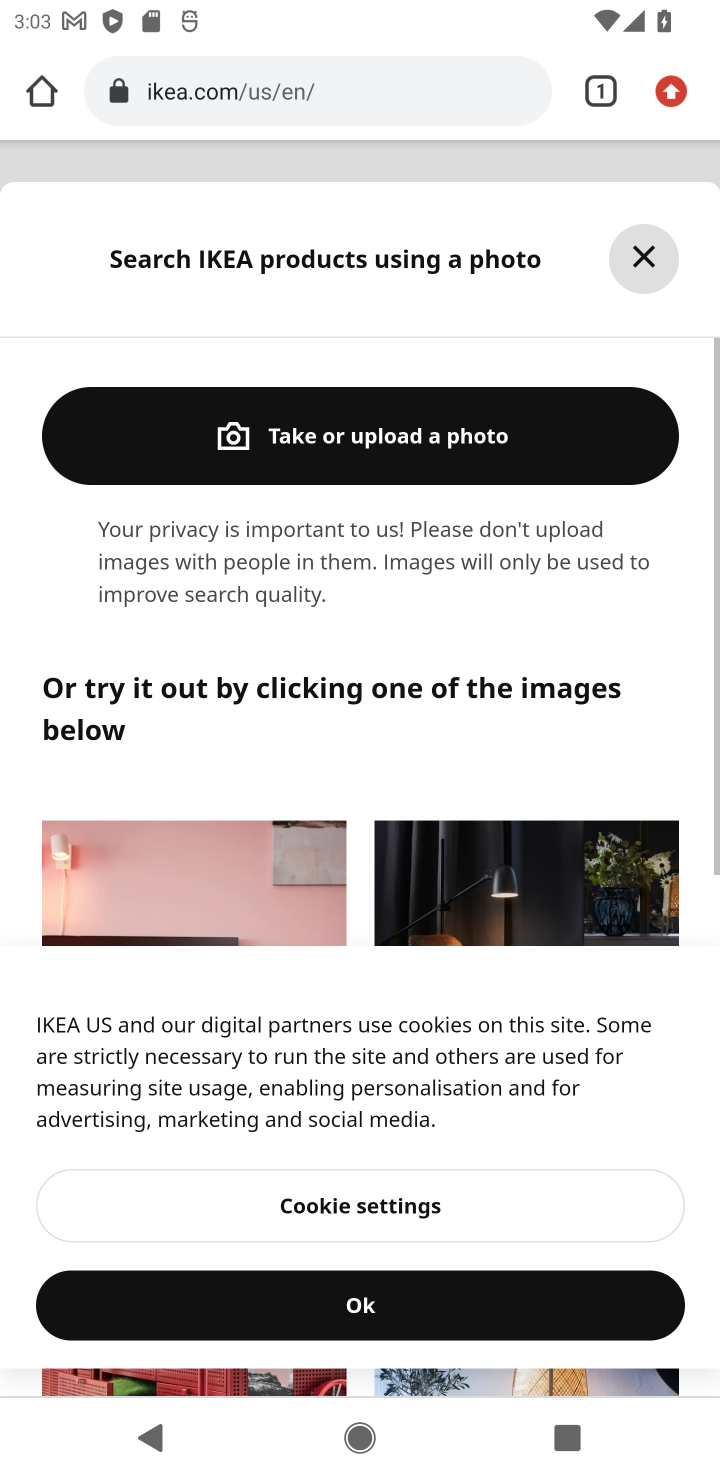
Step 31: click (636, 257)
Your task to perform on an android device: Look up the best rated coffee table on Ikea Image 32: 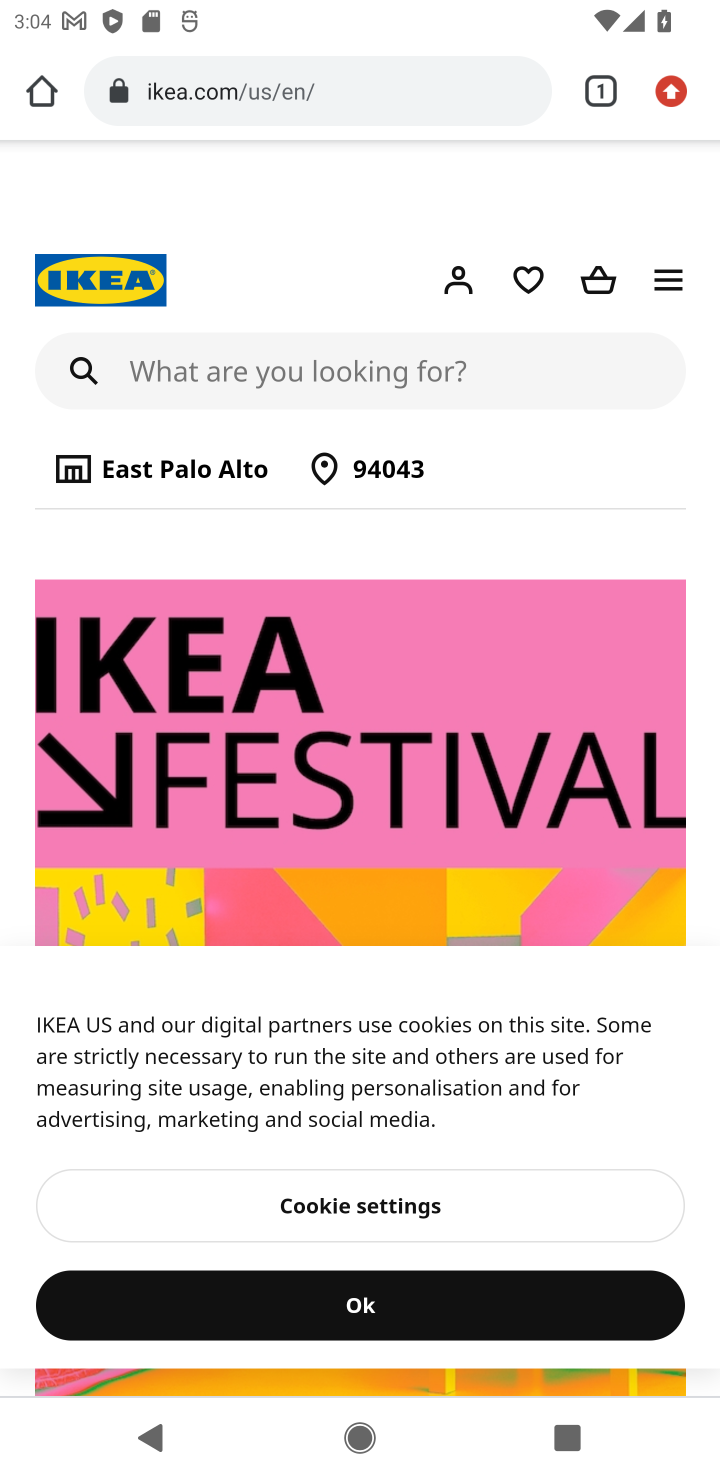
Step 32: click (234, 362)
Your task to perform on an android device: Look up the best rated coffee table on Ikea Image 33: 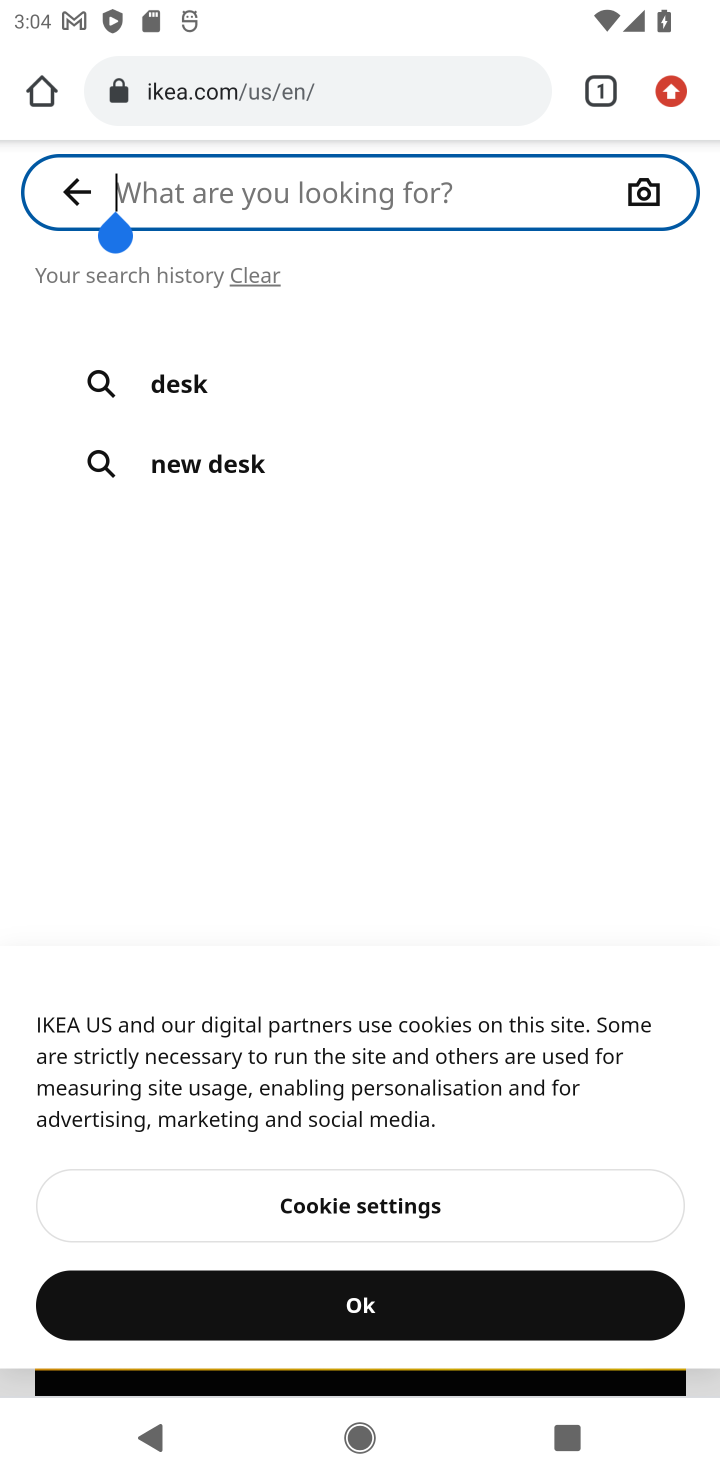
Step 33: type "coffee table"
Your task to perform on an android device: Look up the best rated coffee table on Ikea Image 34: 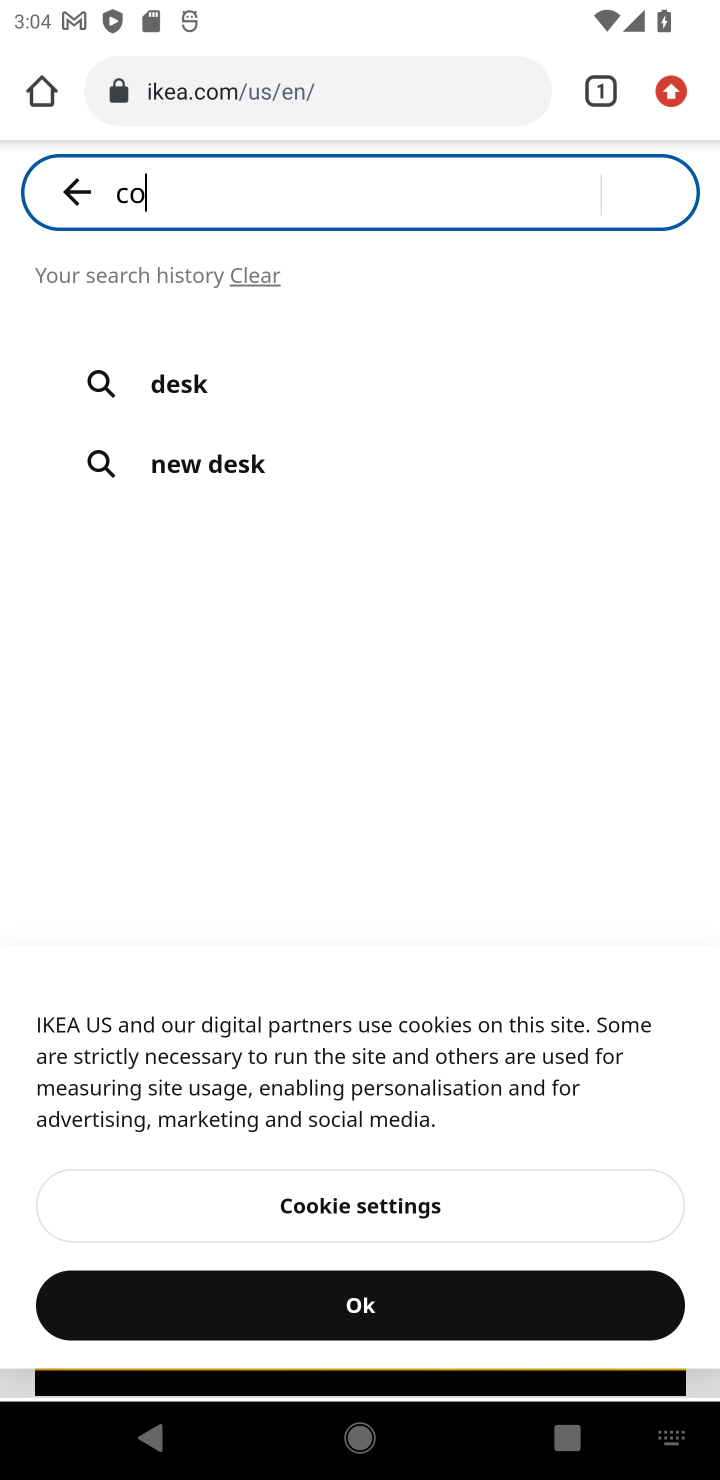
Step 34: type ""
Your task to perform on an android device: Look up the best rated coffee table on Ikea Image 35: 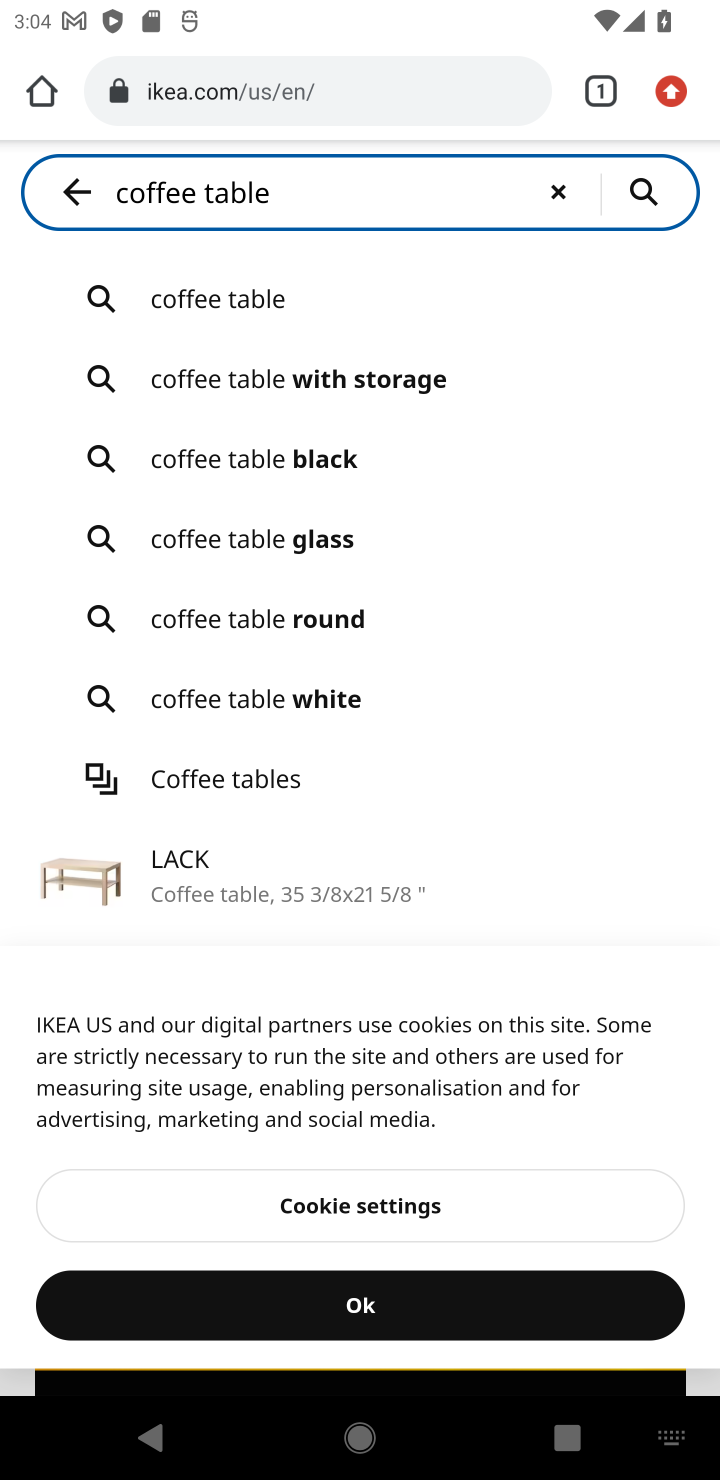
Step 35: click (230, 292)
Your task to perform on an android device: Look up the best rated coffee table on Ikea Image 36: 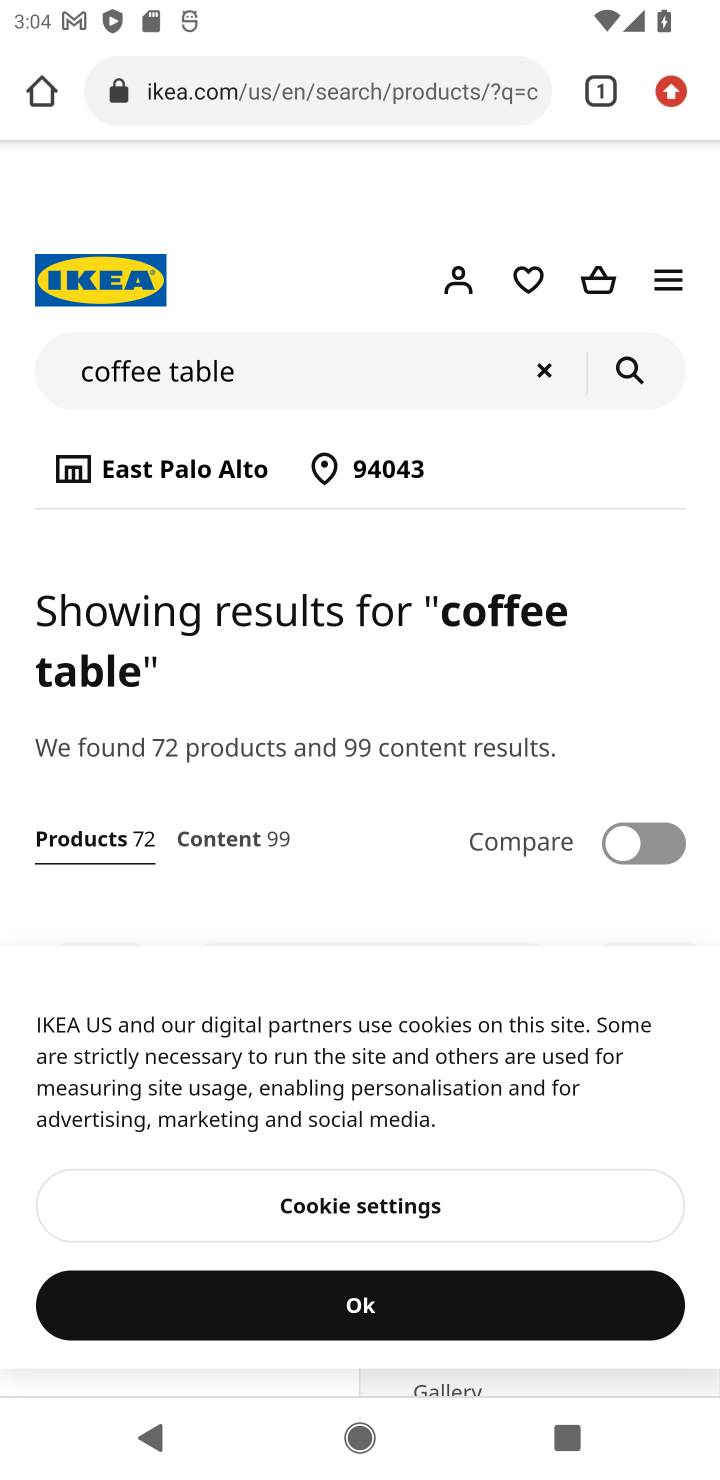
Step 36: drag from (671, 511) to (682, 306)
Your task to perform on an android device: Look up the best rated coffee table on Ikea Image 37: 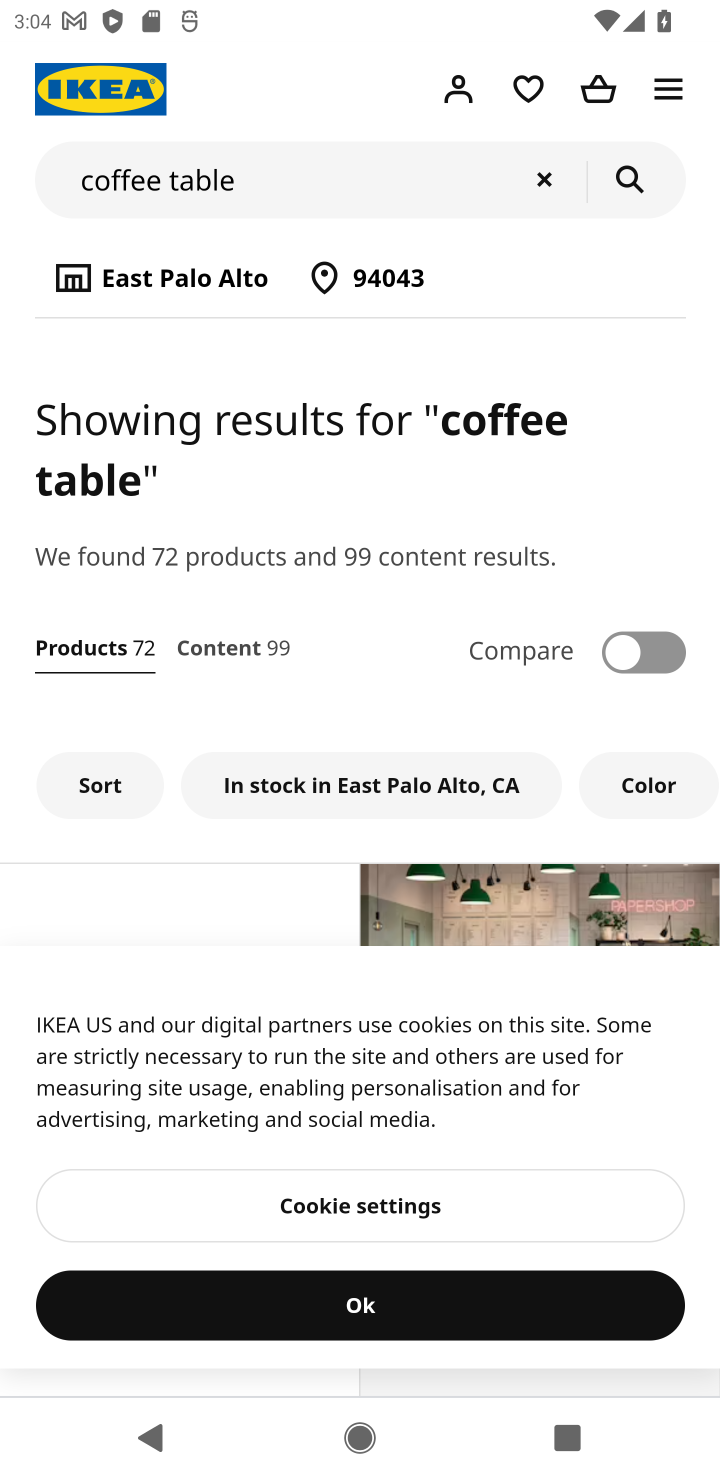
Step 37: drag from (214, 888) to (341, 234)
Your task to perform on an android device: Look up the best rated coffee table on Ikea Image 38: 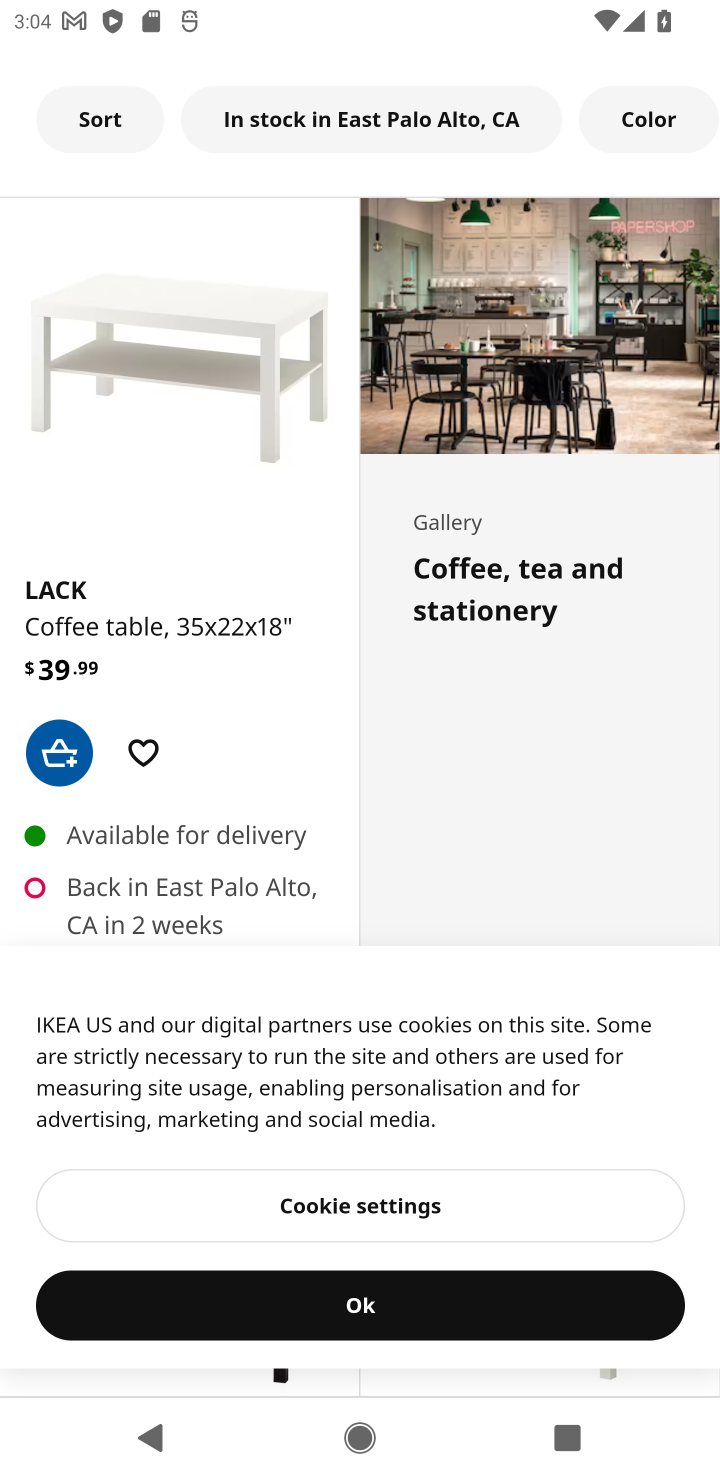
Step 38: drag from (539, 779) to (624, 241)
Your task to perform on an android device: Look up the best rated coffee table on Ikea Image 39: 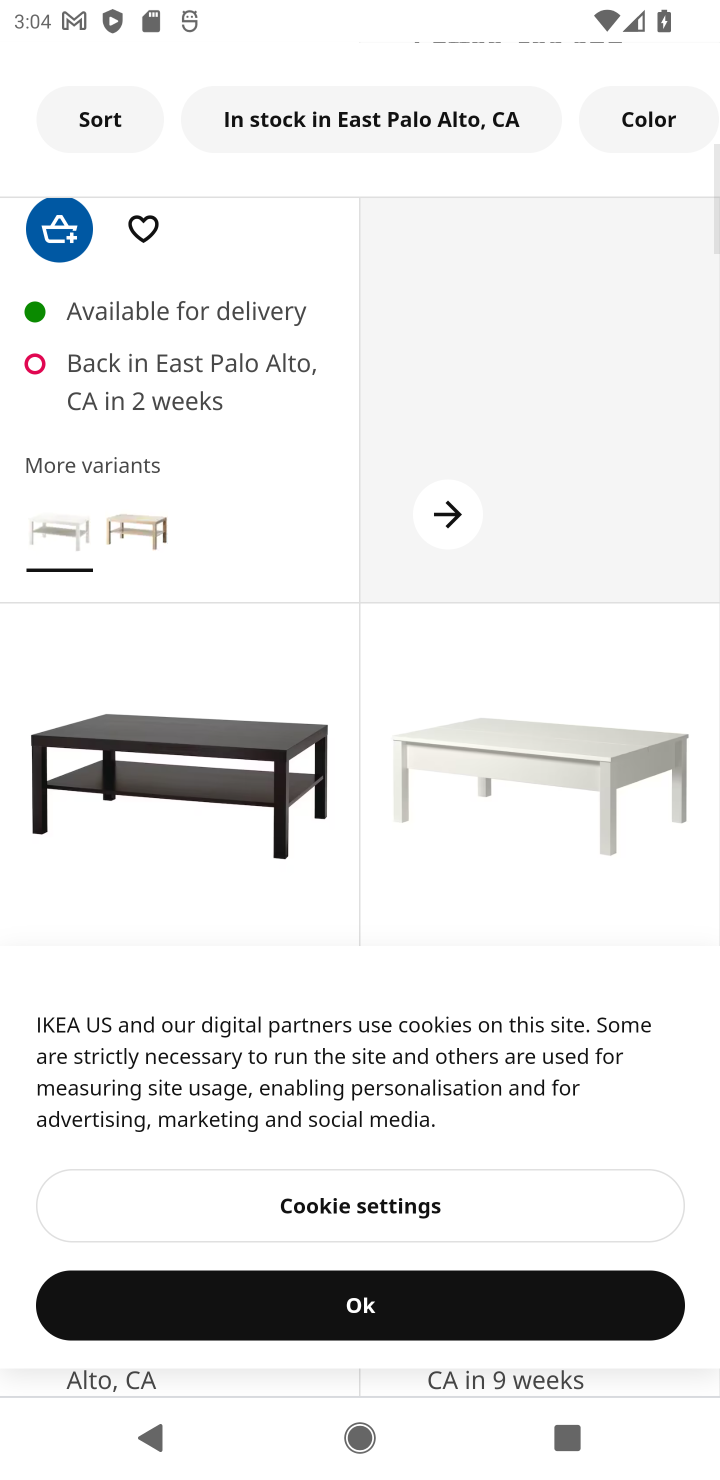
Step 39: drag from (336, 587) to (413, 235)
Your task to perform on an android device: Look up the best rated coffee table on Ikea Image 40: 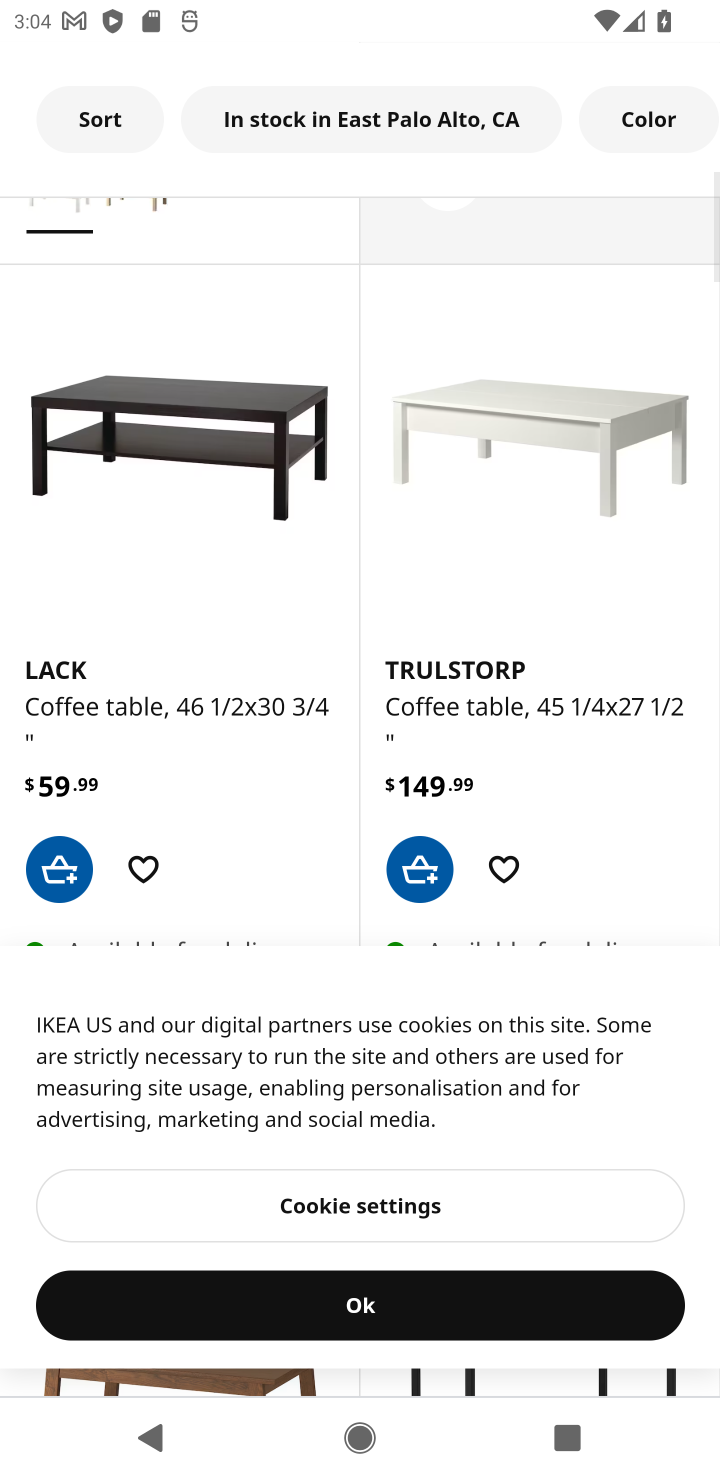
Step 40: click (423, 294)
Your task to perform on an android device: Look up the best rated coffee table on Ikea Image 41: 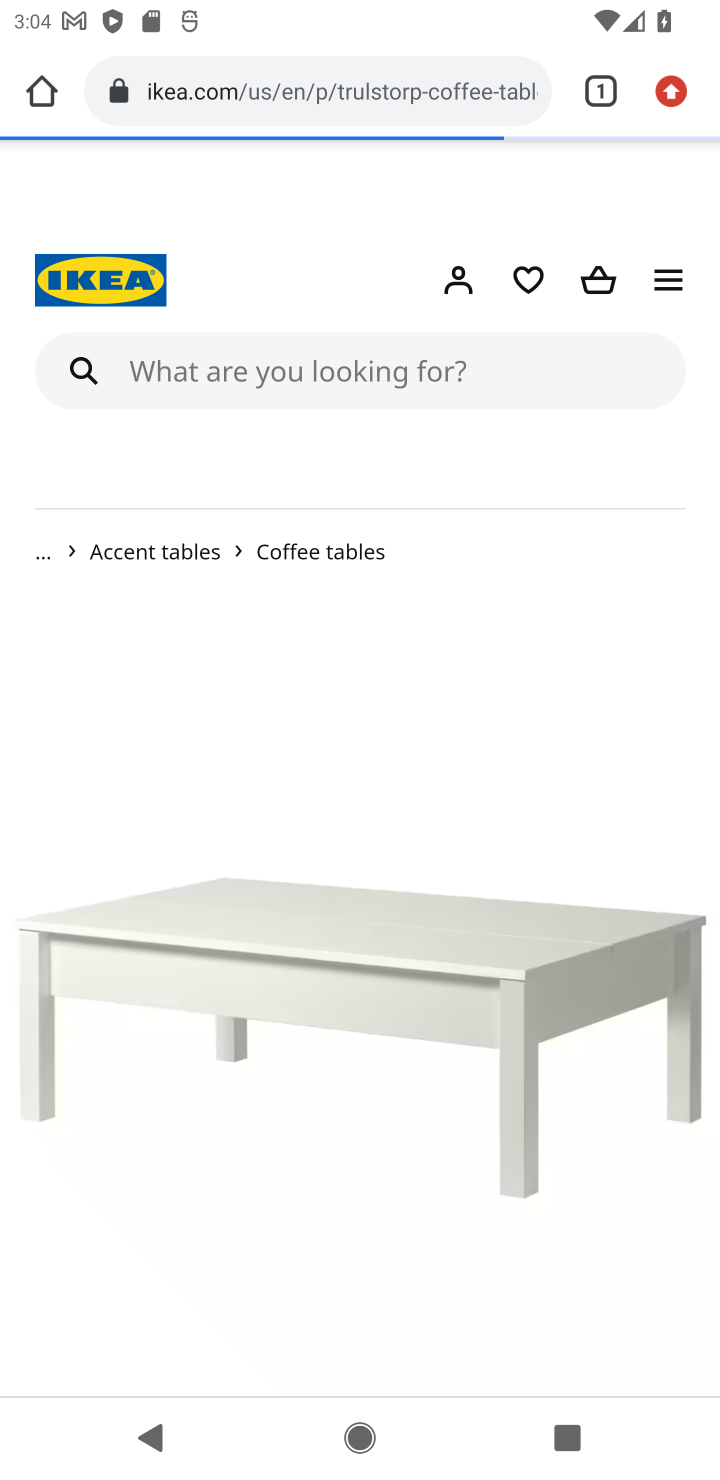
Step 41: task complete